Your task to perform on an android device: Add usb-b to the cart on newegg, then select checkout. Image 0: 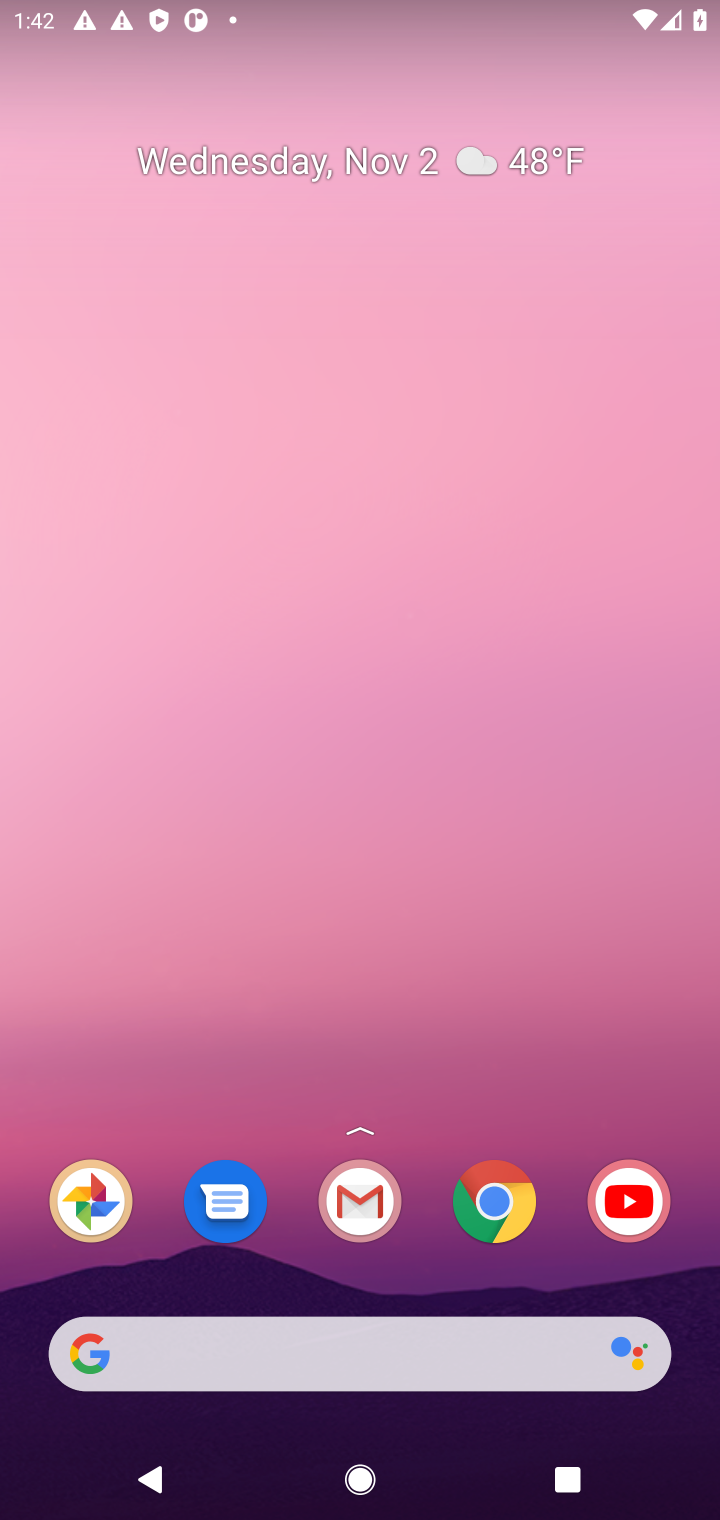
Step 0: click (487, 1228)
Your task to perform on an android device: Add usb-b to the cart on newegg, then select checkout. Image 1: 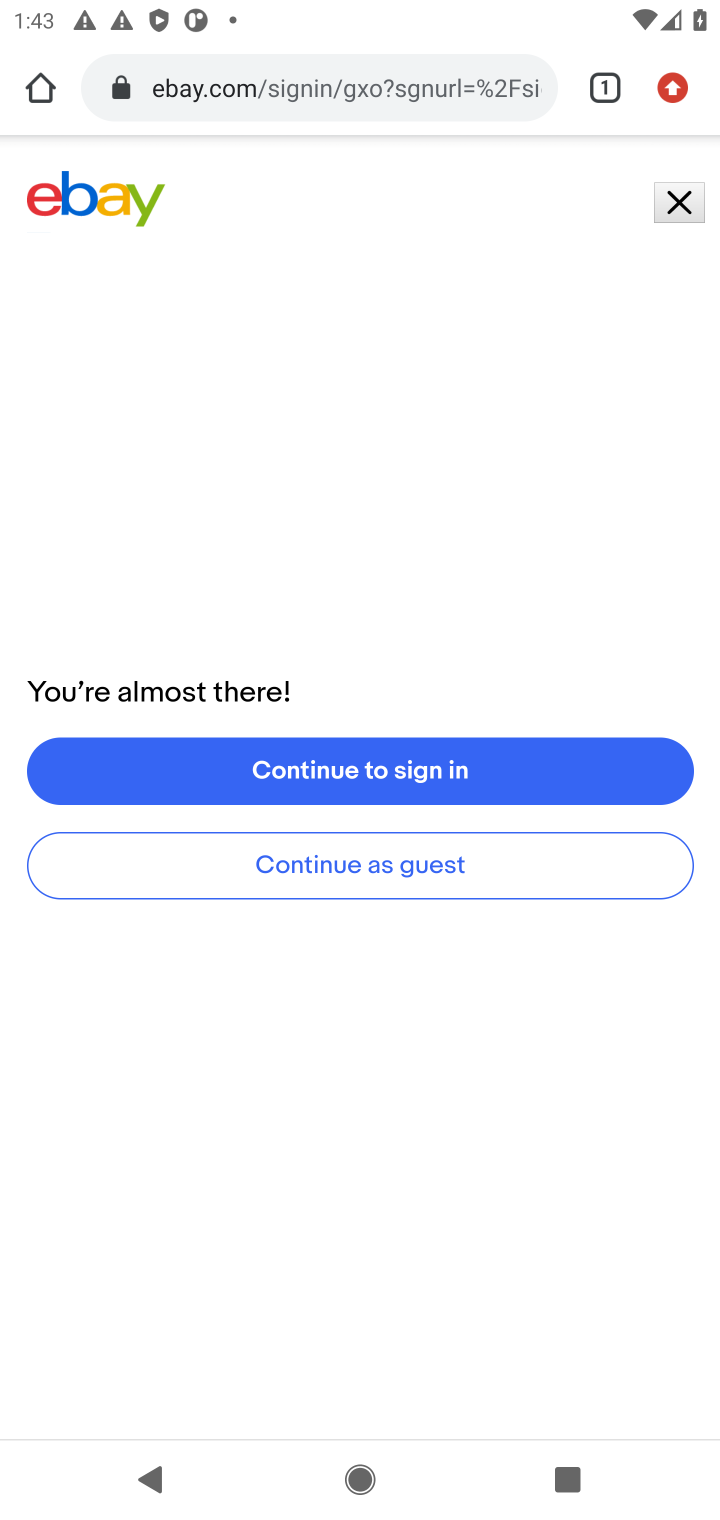
Step 1: click (351, 74)
Your task to perform on an android device: Add usb-b to the cart on newegg, then select checkout. Image 2: 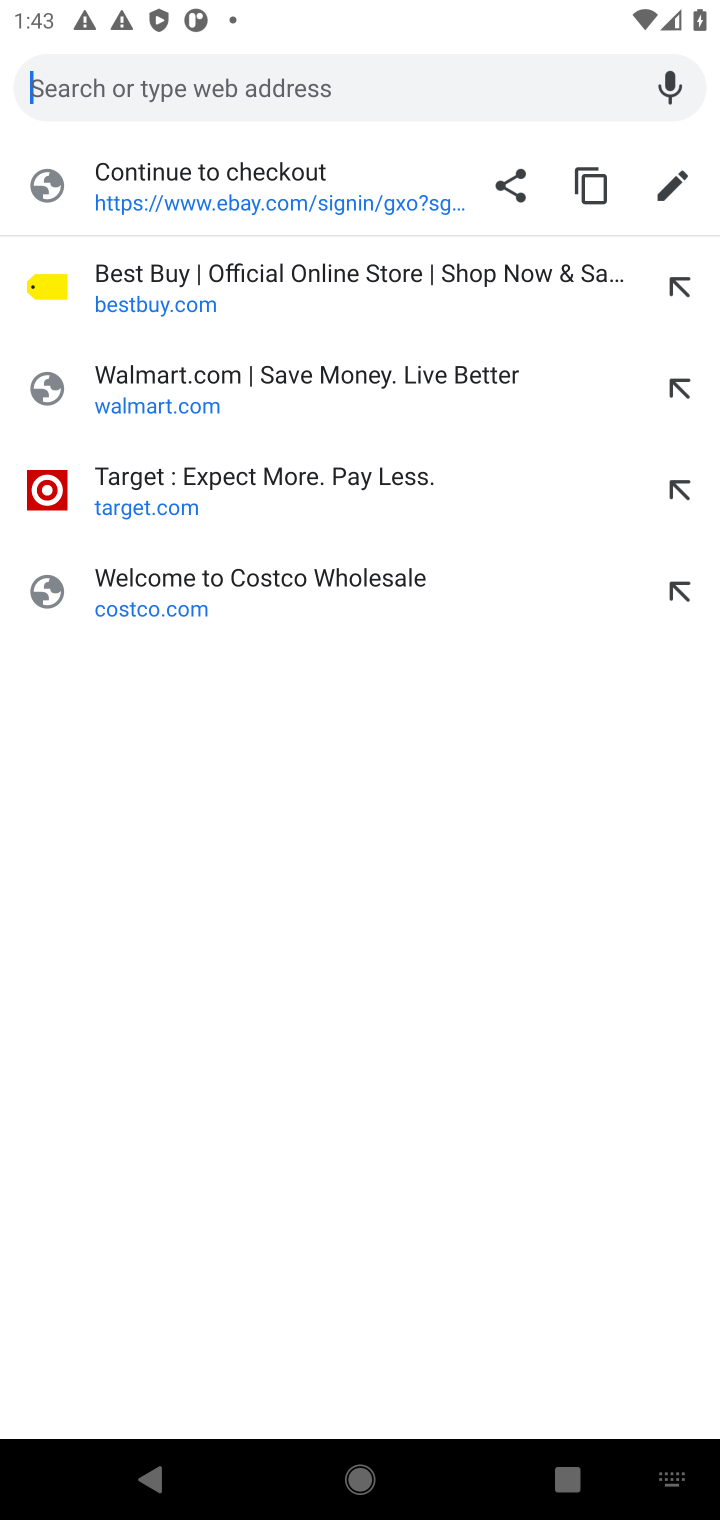
Step 2: type "newegg"
Your task to perform on an android device: Add usb-b to the cart on newegg, then select checkout. Image 3: 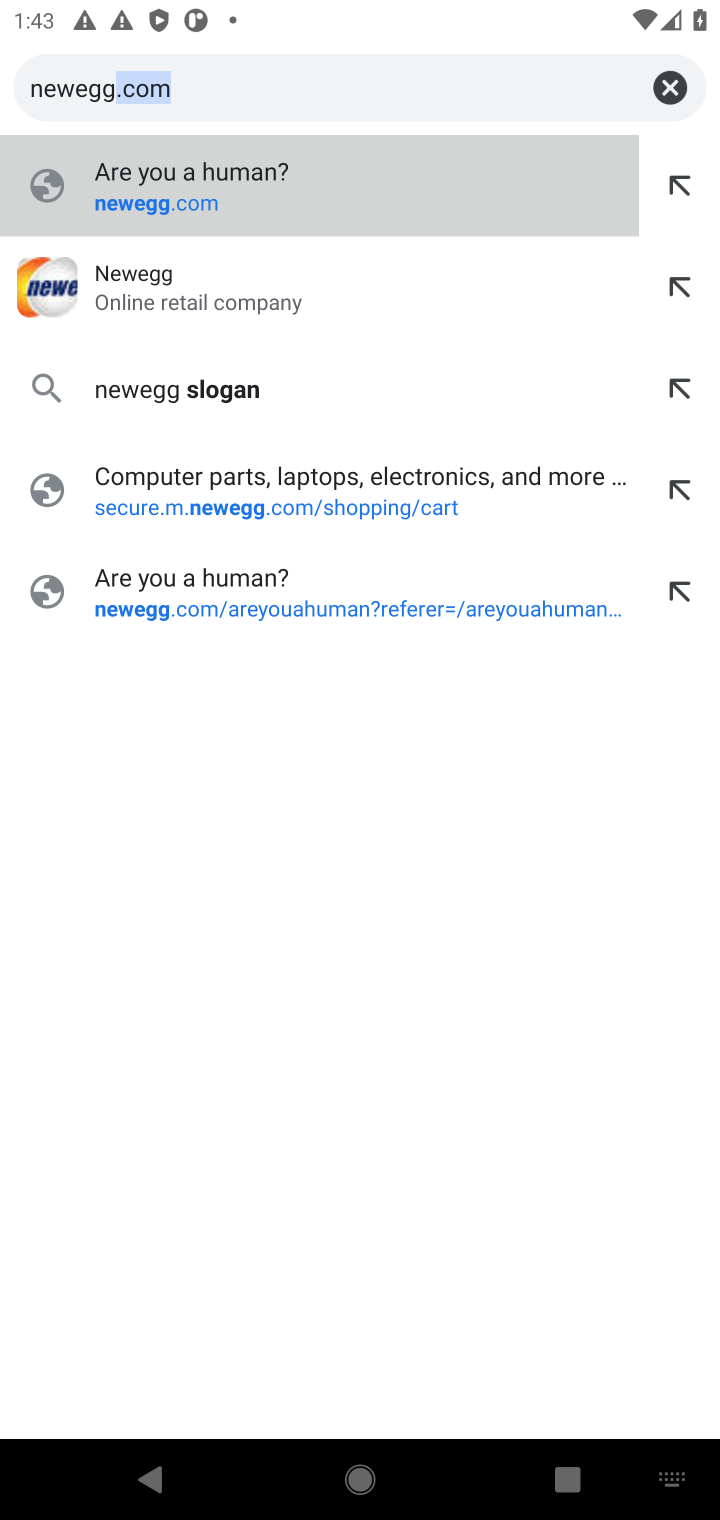
Step 3: click (229, 276)
Your task to perform on an android device: Add usb-b to the cart on newegg, then select checkout. Image 4: 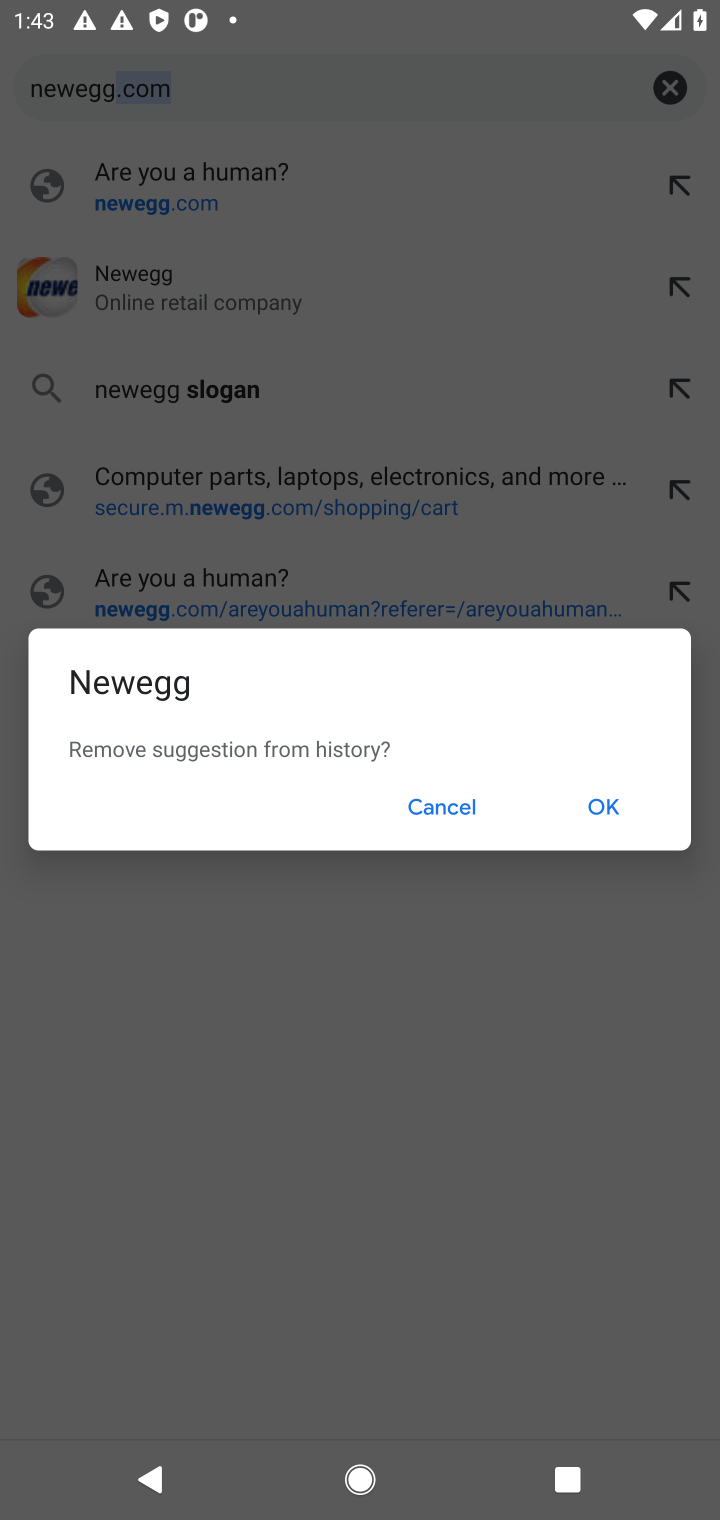
Step 4: click (602, 806)
Your task to perform on an android device: Add usb-b to the cart on newegg, then select checkout. Image 5: 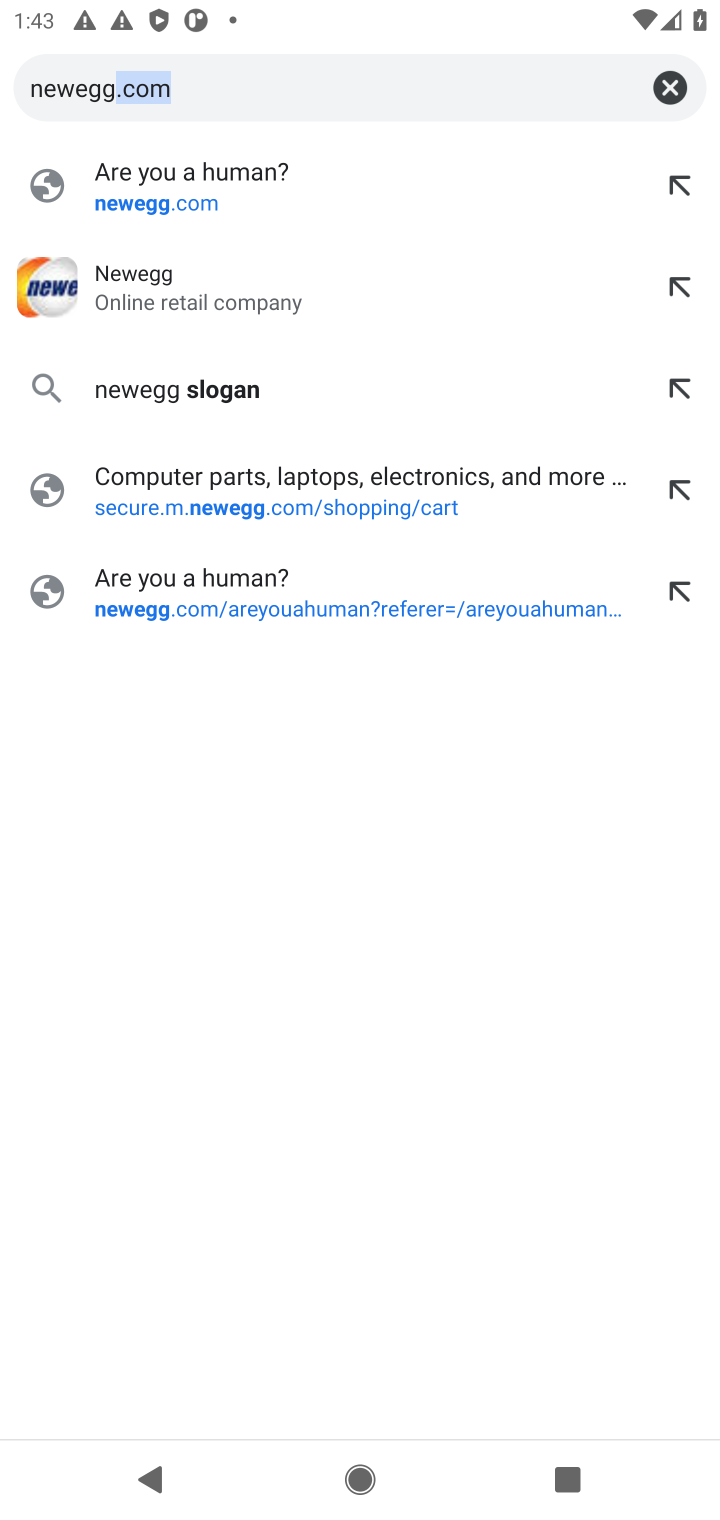
Step 5: click (307, 89)
Your task to perform on an android device: Add usb-b to the cart on newegg, then select checkout. Image 6: 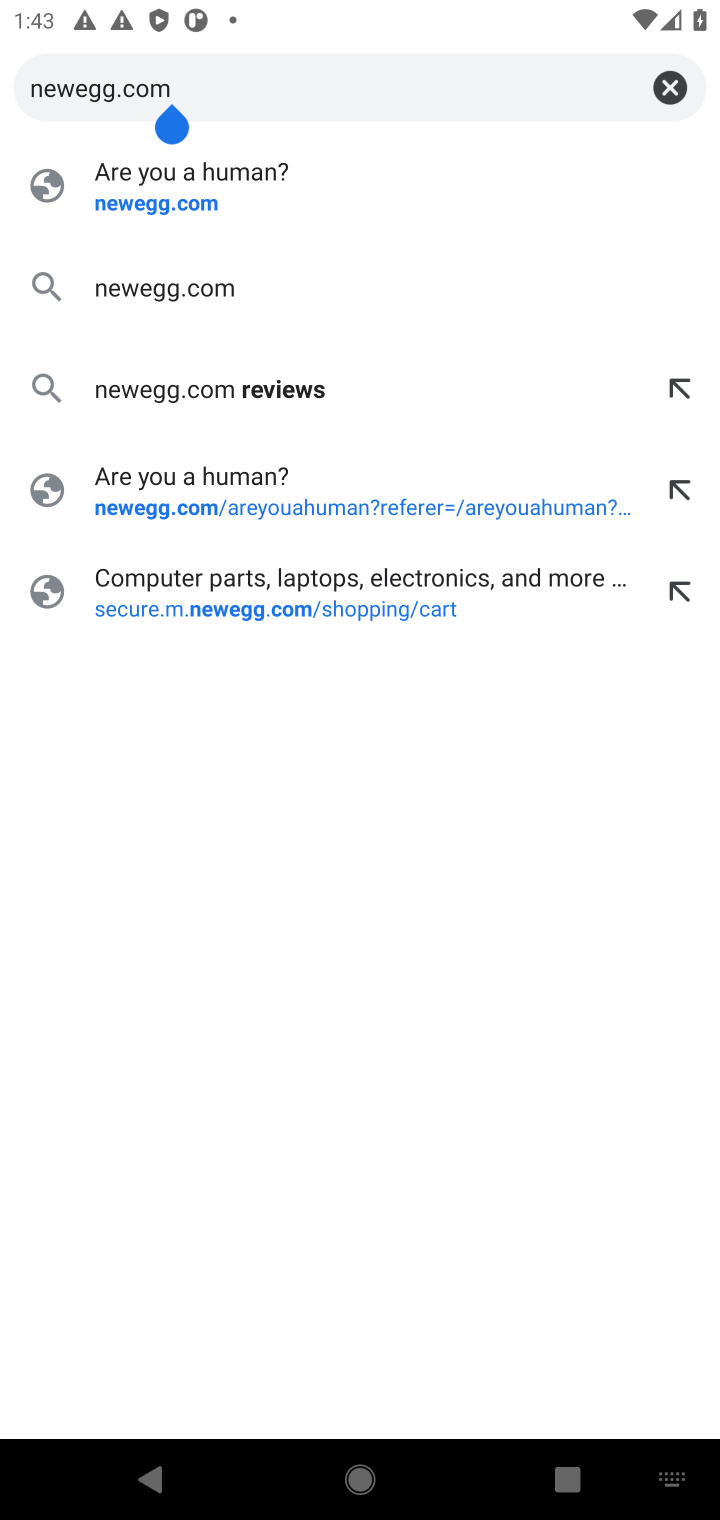
Step 6: click (202, 285)
Your task to perform on an android device: Add usb-b to the cart on newegg, then select checkout. Image 7: 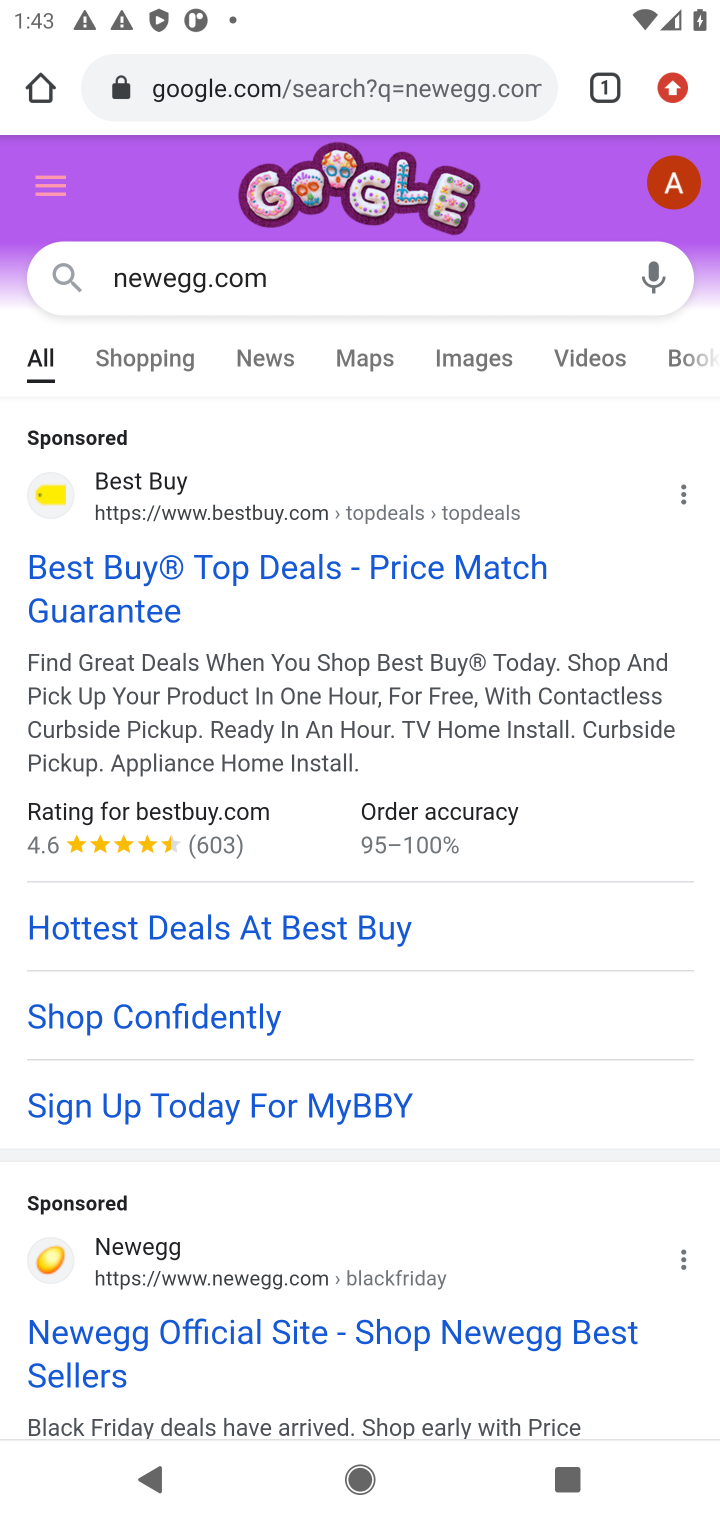
Step 7: click (257, 1269)
Your task to perform on an android device: Add usb-b to the cart on newegg, then select checkout. Image 8: 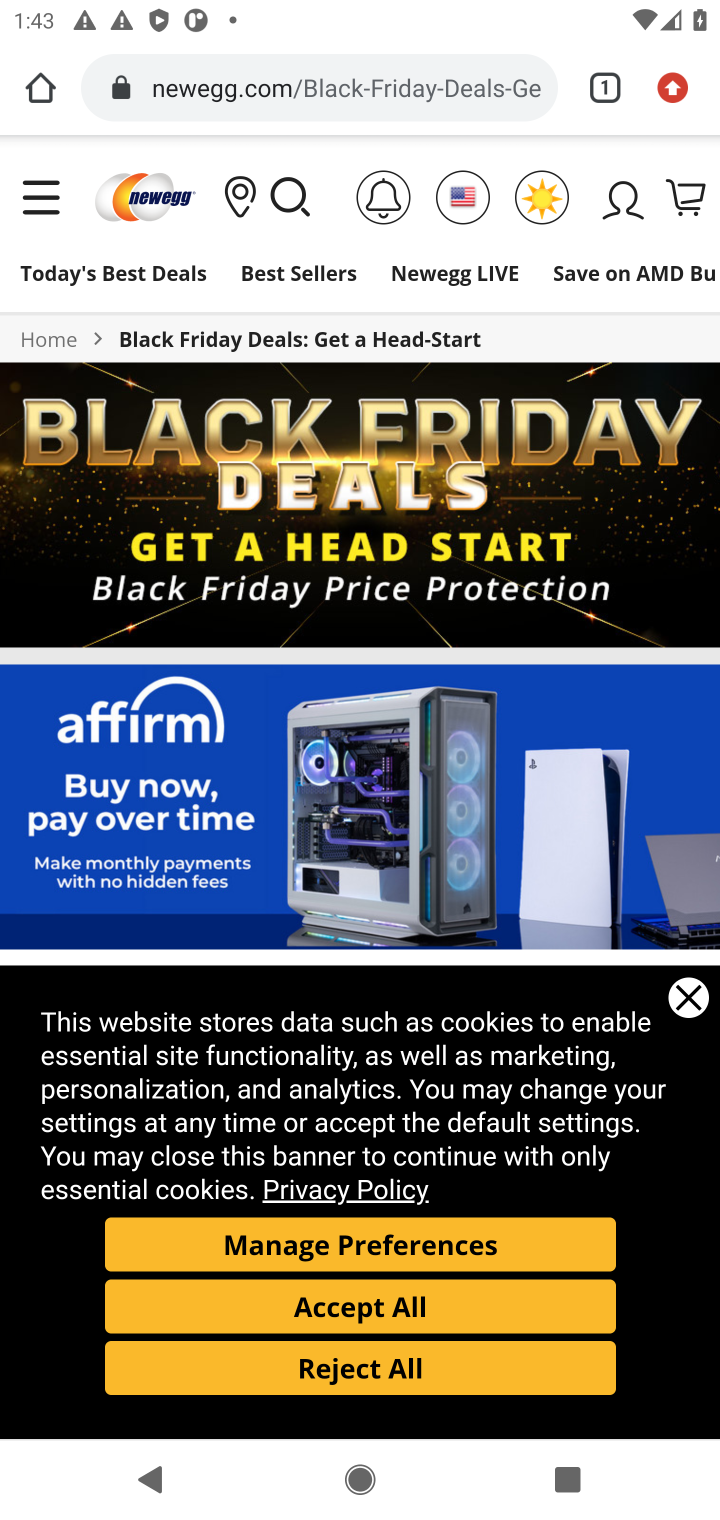
Step 8: click (289, 198)
Your task to perform on an android device: Add usb-b to the cart on newegg, then select checkout. Image 9: 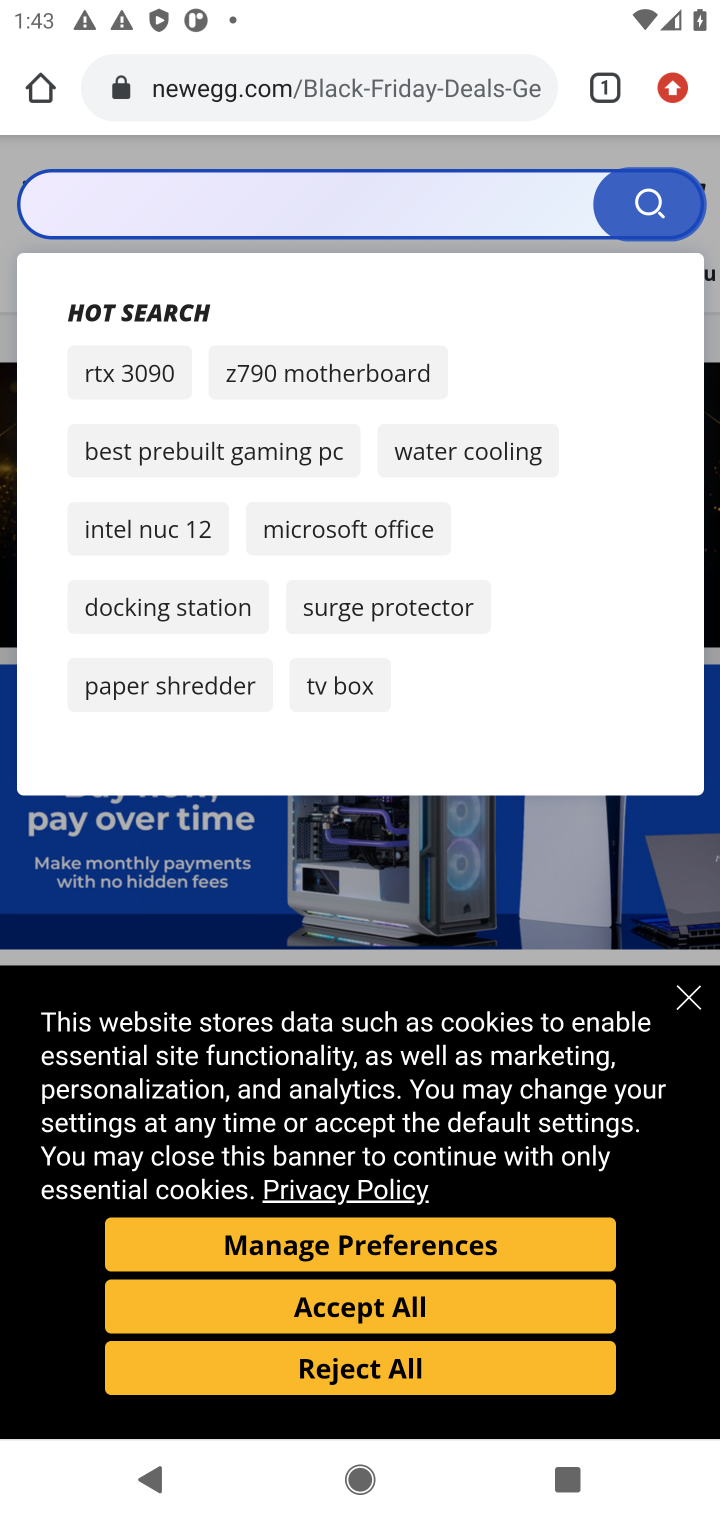
Step 9: click (482, 199)
Your task to perform on an android device: Add usb-b to the cart on newegg, then select checkout. Image 10: 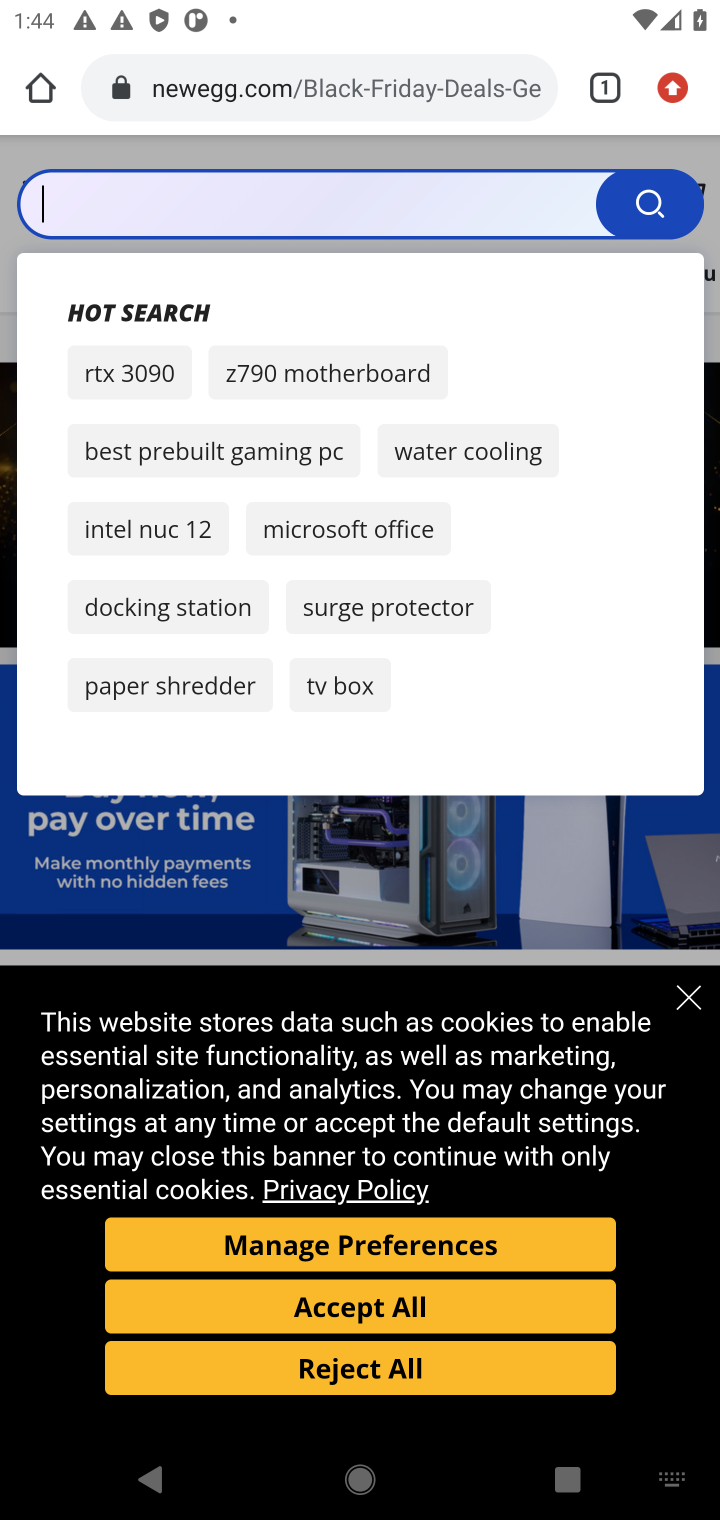
Step 10: type " usb-b"
Your task to perform on an android device: Add usb-b to the cart on newegg, then select checkout. Image 11: 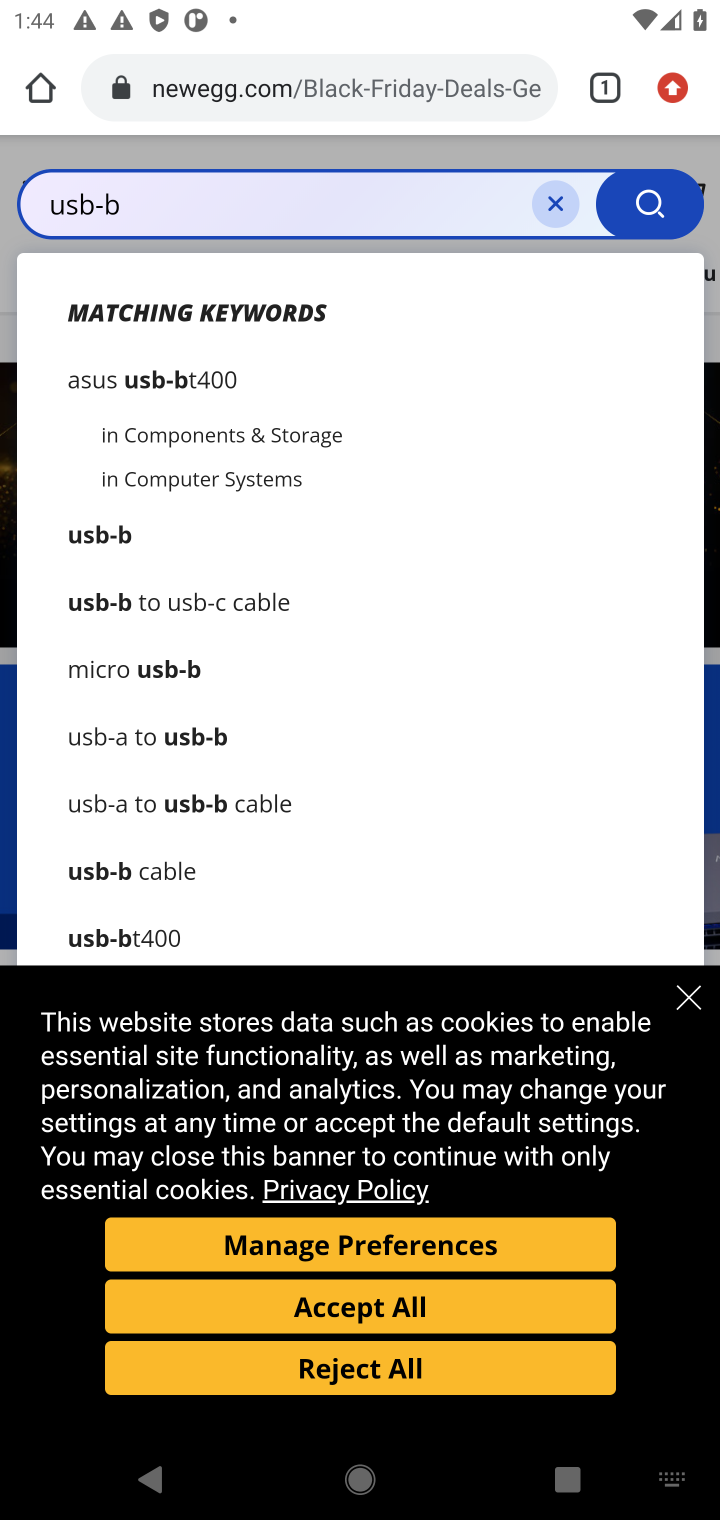
Step 11: click (95, 533)
Your task to perform on an android device: Add usb-b to the cart on newegg, then select checkout. Image 12: 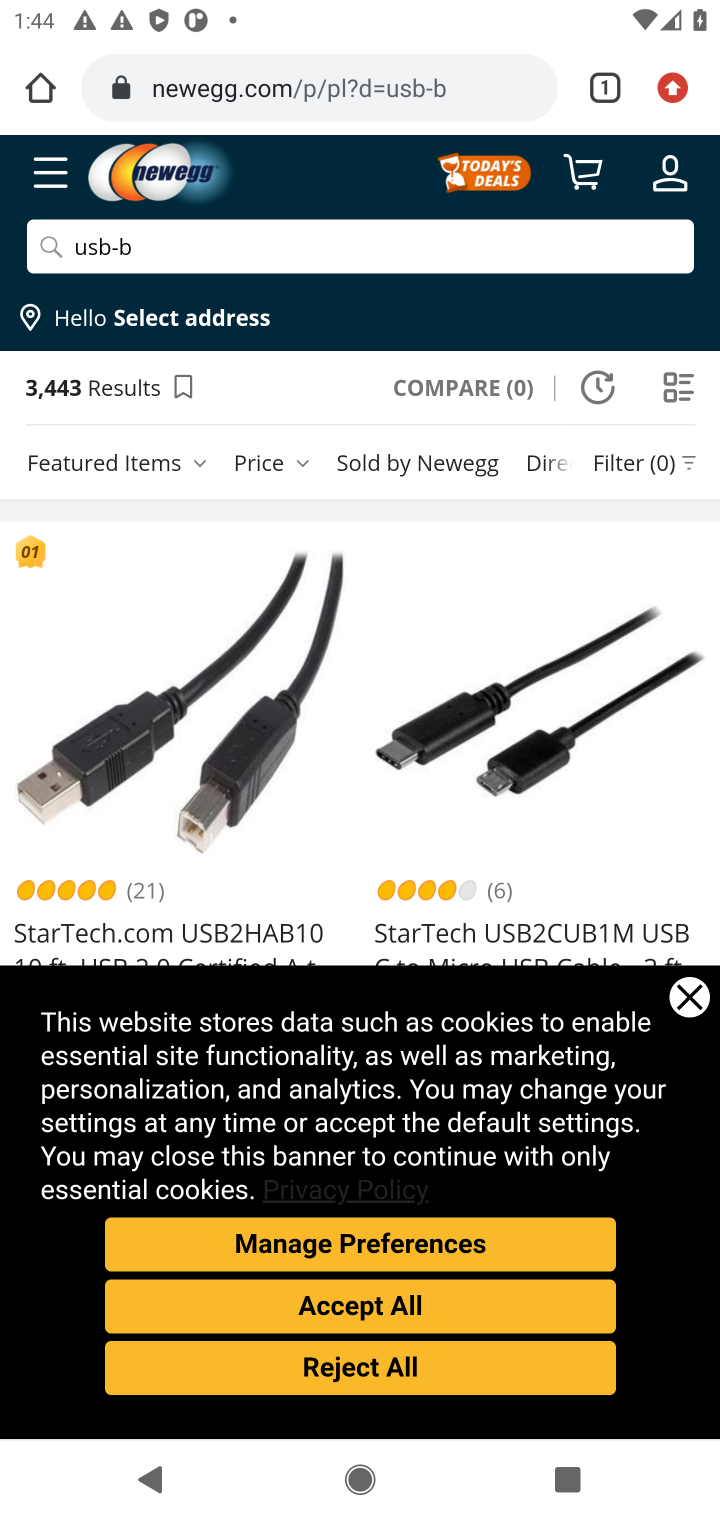
Step 12: drag from (271, 837) to (394, 415)
Your task to perform on an android device: Add usb-b to the cart on newegg, then select checkout. Image 13: 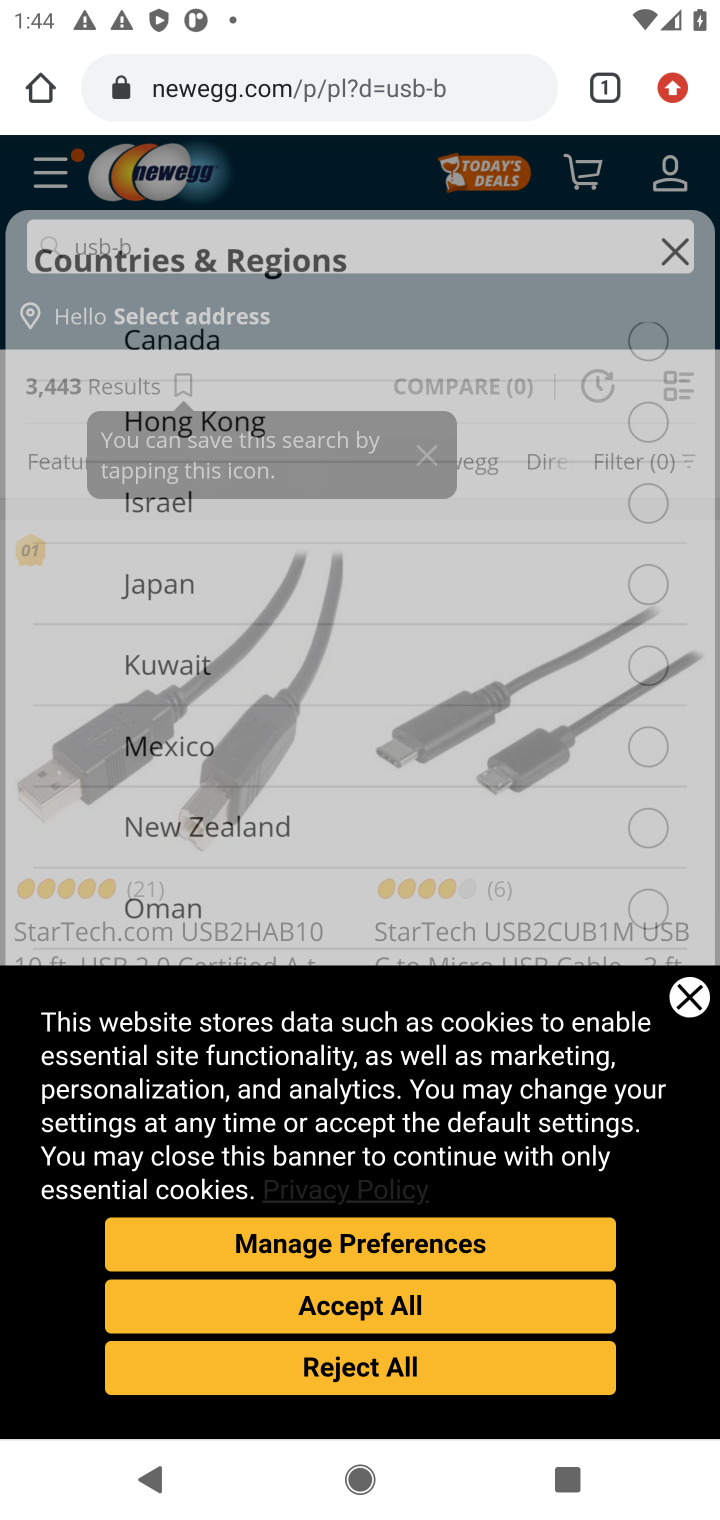
Step 13: click (693, 985)
Your task to perform on an android device: Add usb-b to the cart on newegg, then select checkout. Image 14: 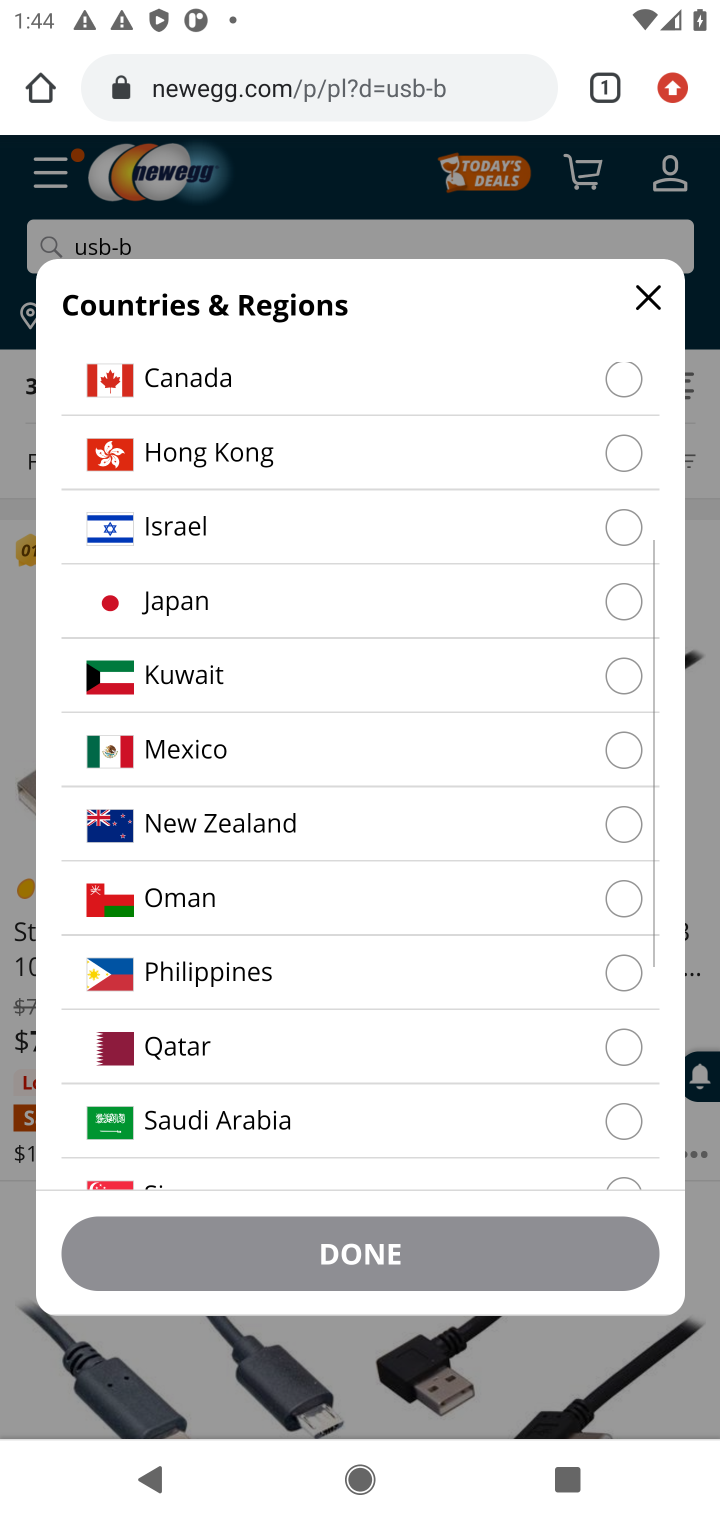
Step 14: drag from (515, 522) to (592, 1143)
Your task to perform on an android device: Add usb-b to the cart on newegg, then select checkout. Image 15: 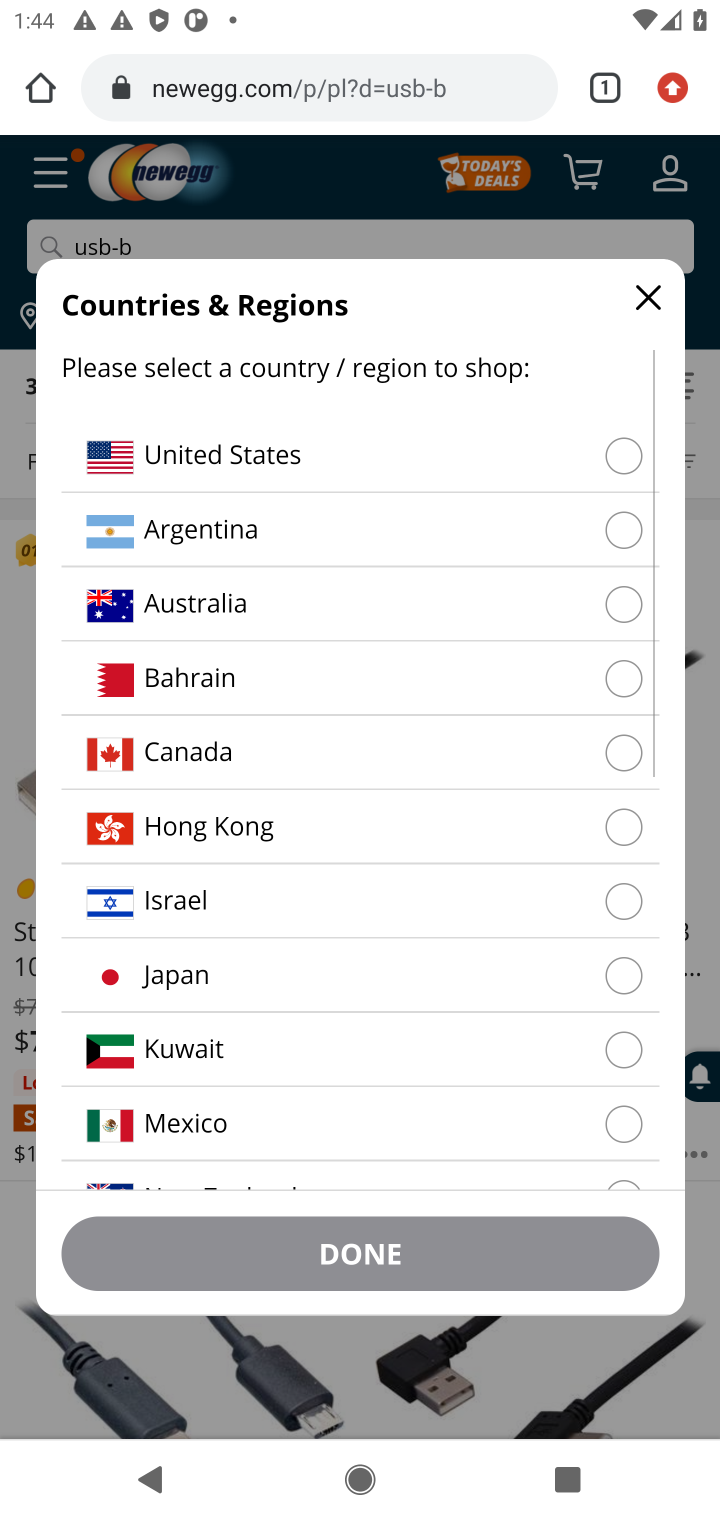
Step 15: click (623, 452)
Your task to perform on an android device: Add usb-b to the cart on newegg, then select checkout. Image 16: 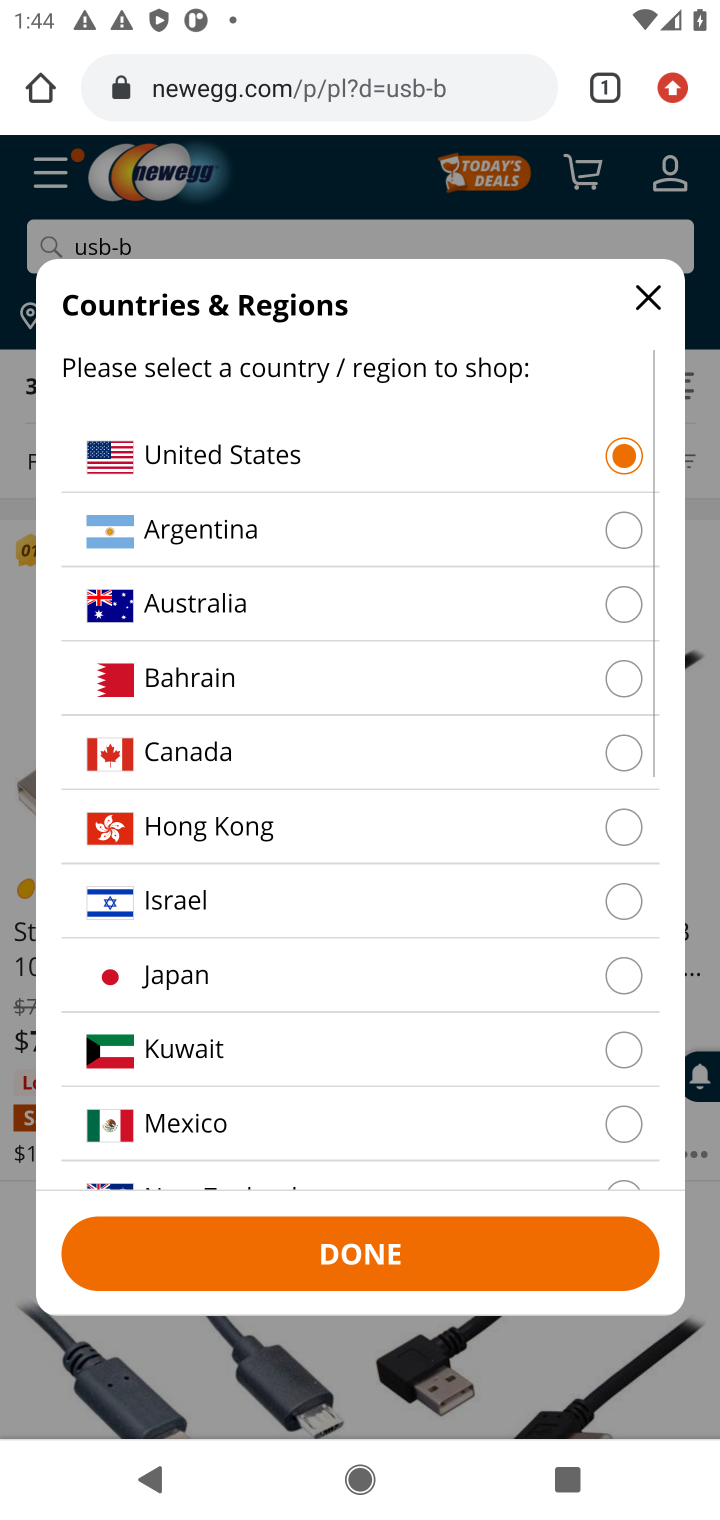
Step 16: click (516, 1260)
Your task to perform on an android device: Add usb-b to the cart on newegg, then select checkout. Image 17: 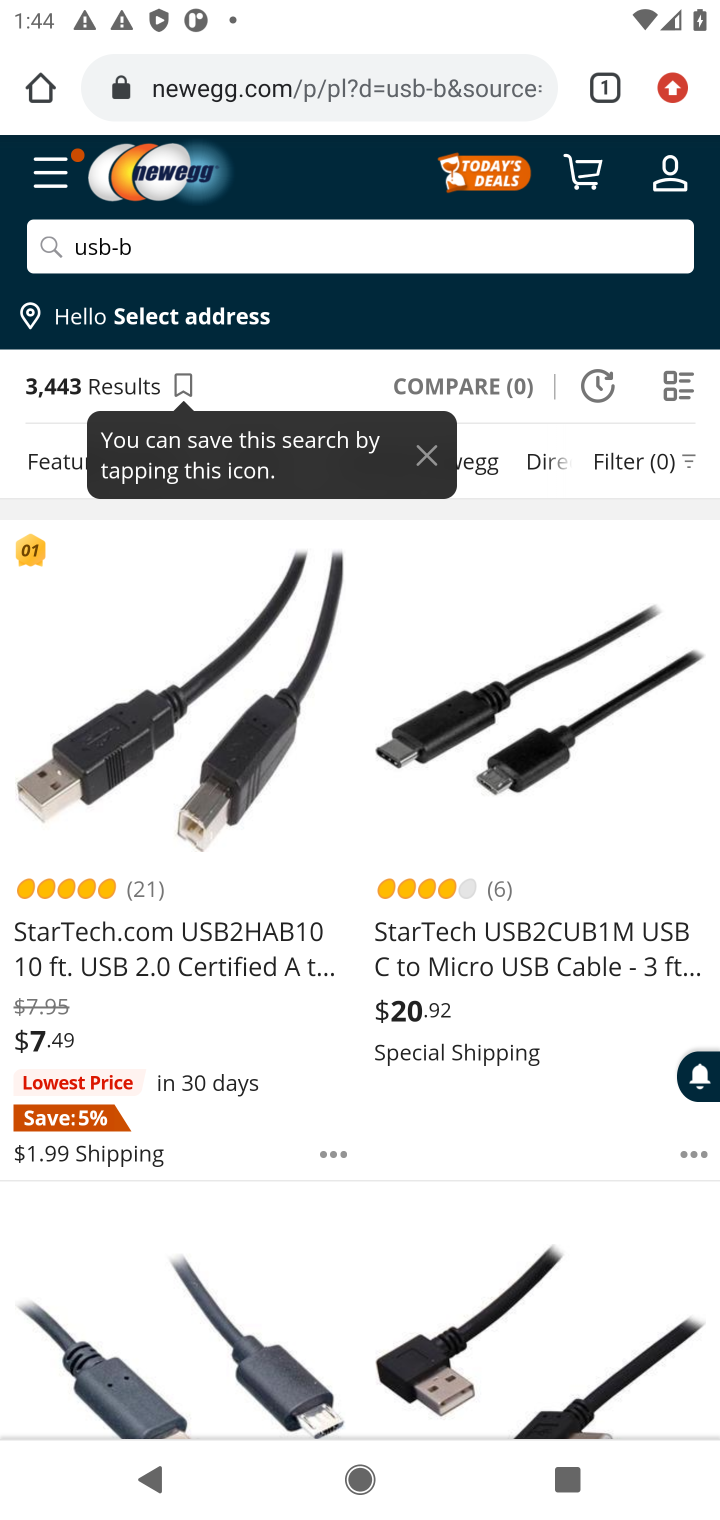
Step 17: drag from (471, 1083) to (476, 646)
Your task to perform on an android device: Add usb-b to the cart on newegg, then select checkout. Image 18: 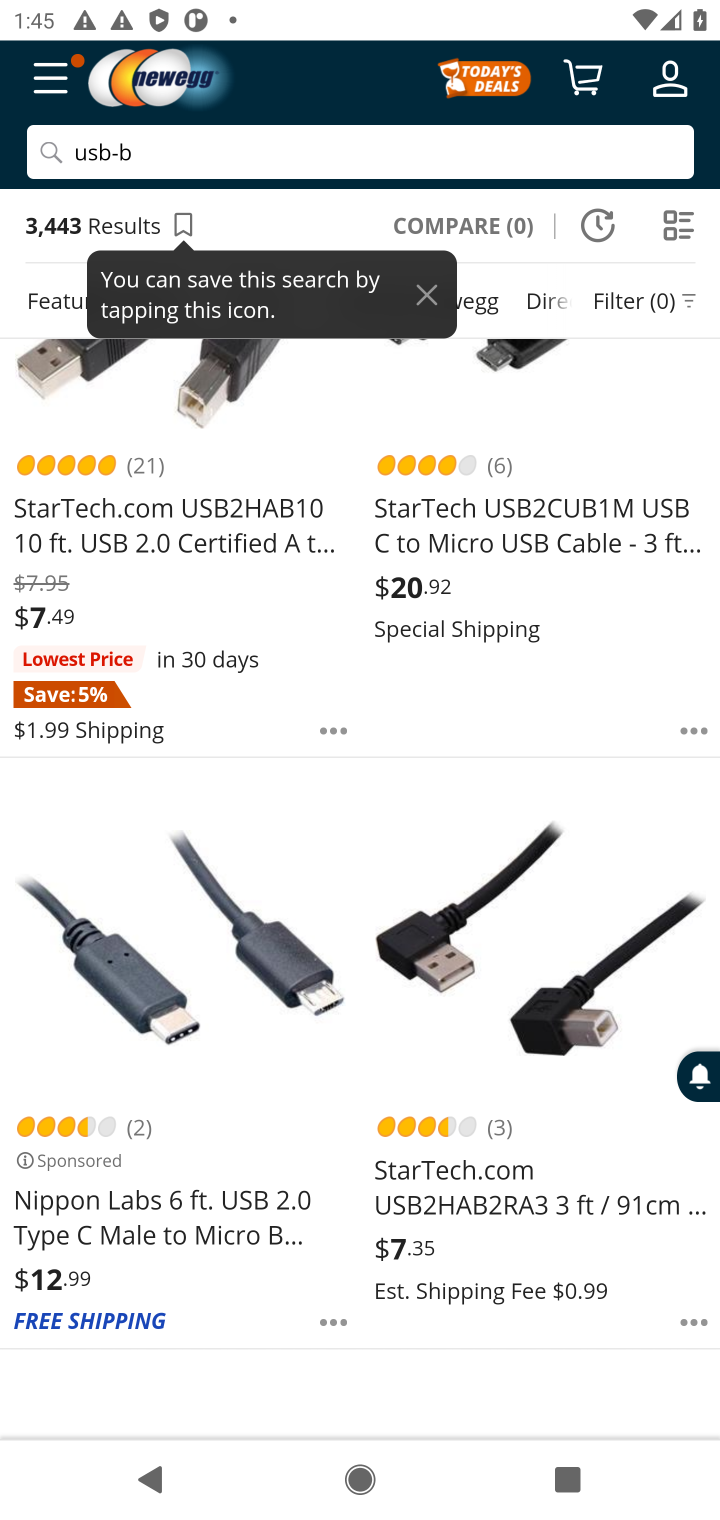
Step 18: drag from (239, 1135) to (287, 795)
Your task to perform on an android device: Add usb-b to the cart on newegg, then select checkout. Image 19: 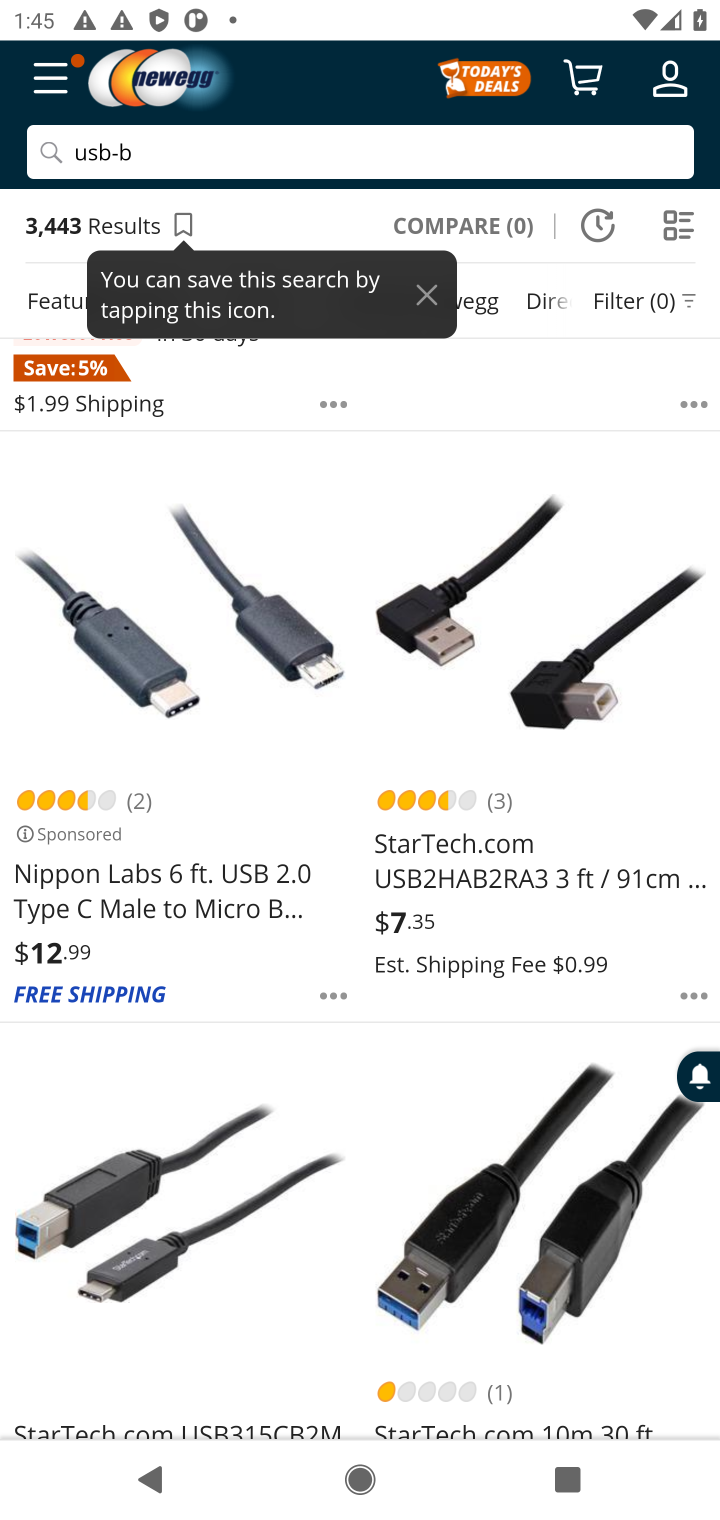
Step 19: click (389, 1002)
Your task to perform on an android device: Add usb-b to the cart on newegg, then select checkout. Image 20: 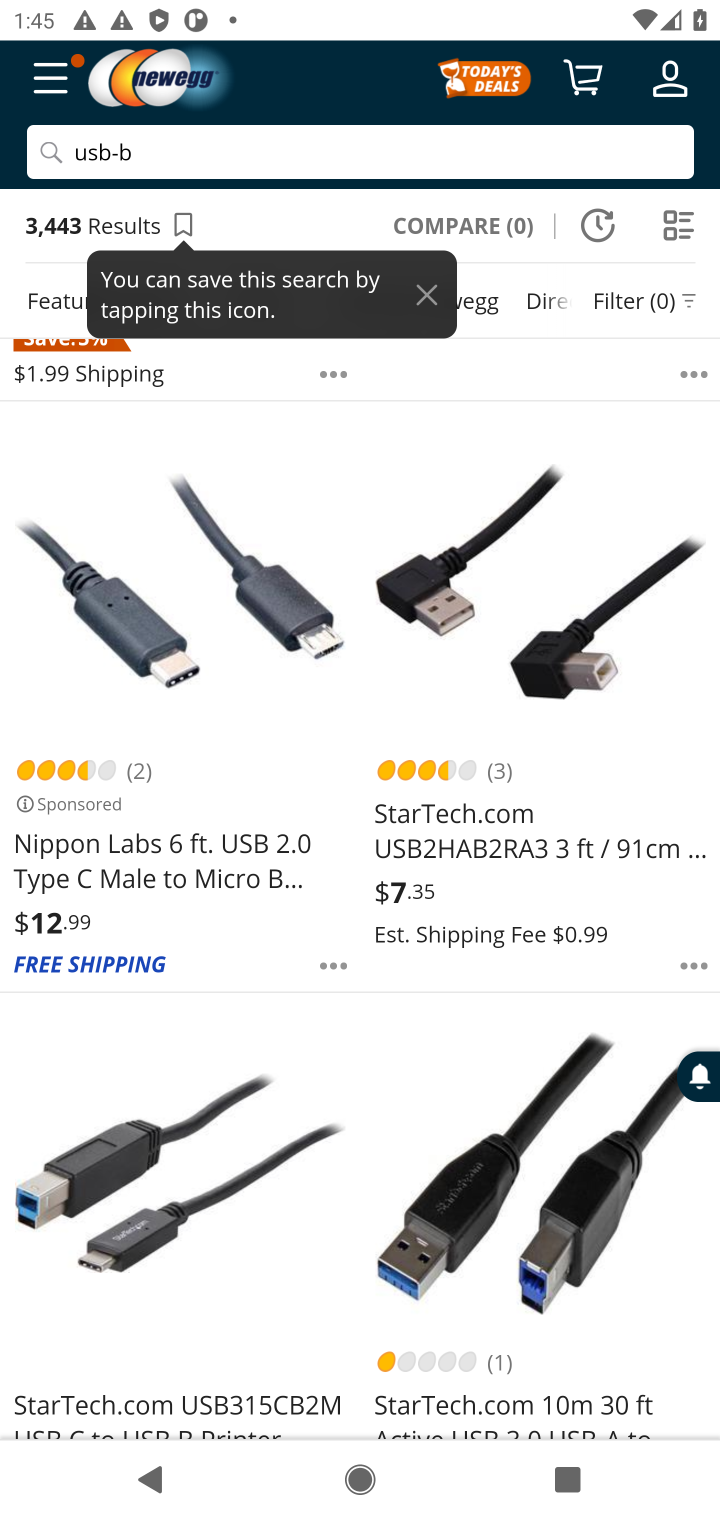
Step 20: drag from (307, 749) to (442, 1268)
Your task to perform on an android device: Add usb-b to the cart on newegg, then select checkout. Image 21: 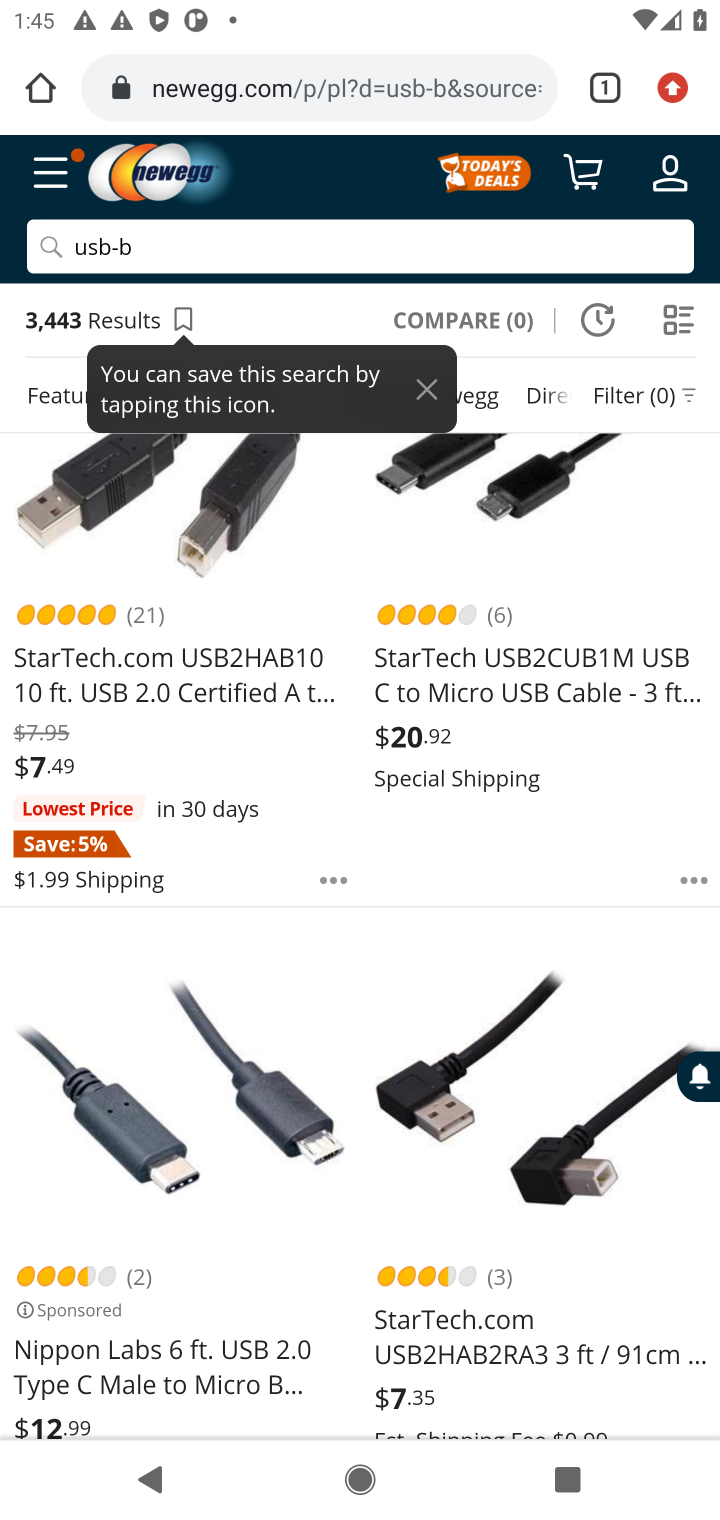
Step 21: drag from (327, 603) to (497, 1258)
Your task to perform on an android device: Add usb-b to the cart on newegg, then select checkout. Image 22: 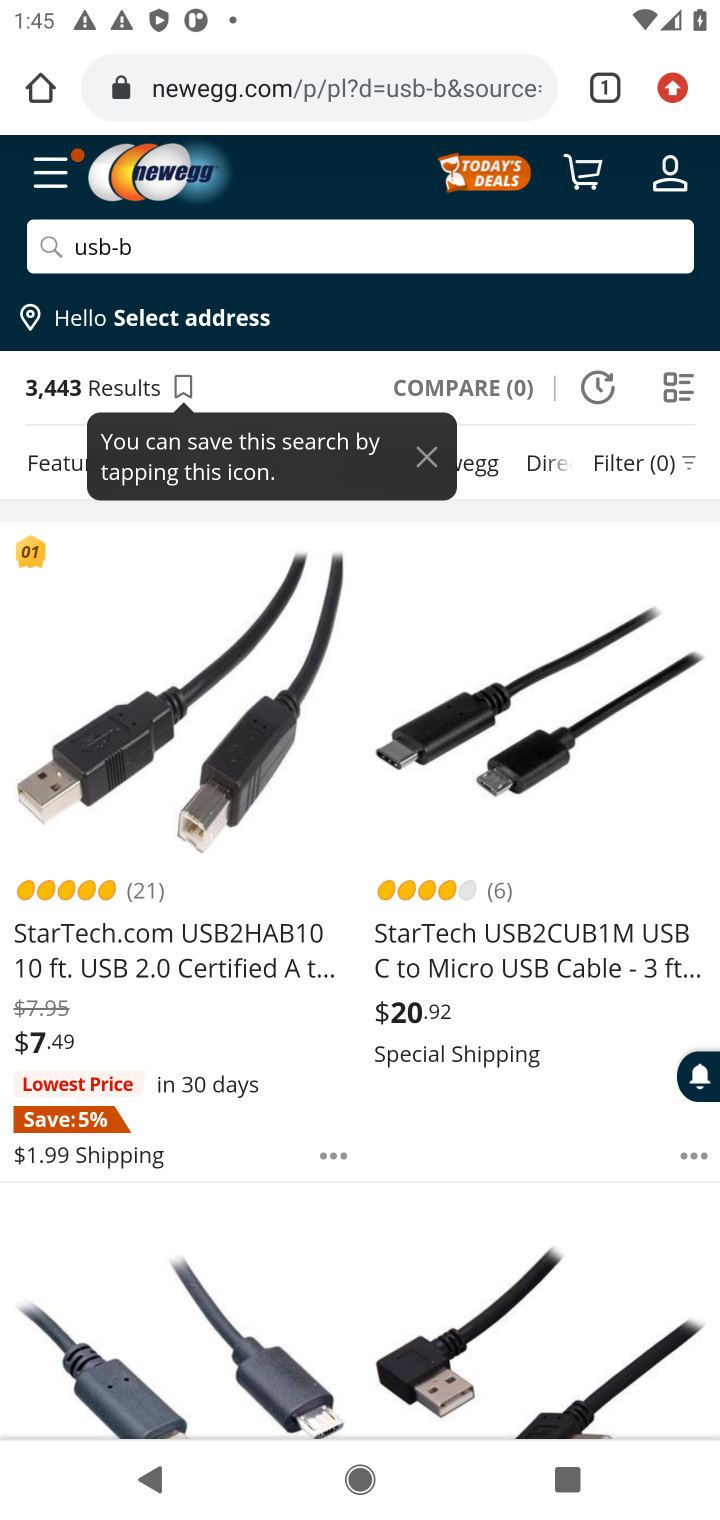
Step 22: drag from (328, 909) to (379, 1218)
Your task to perform on an android device: Add usb-b to the cart on newegg, then select checkout. Image 23: 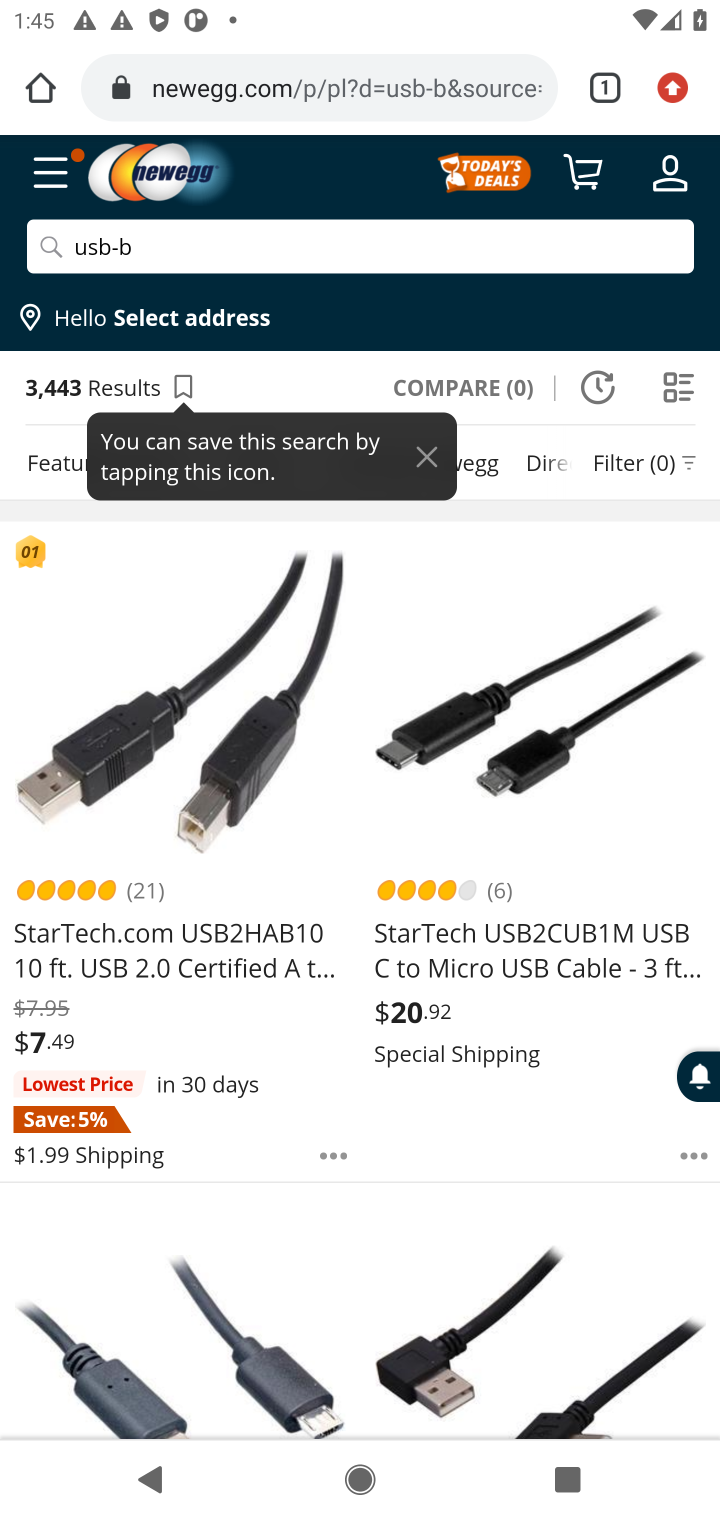
Step 23: drag from (288, 671) to (394, 1204)
Your task to perform on an android device: Add usb-b to the cart on newegg, then select checkout. Image 24: 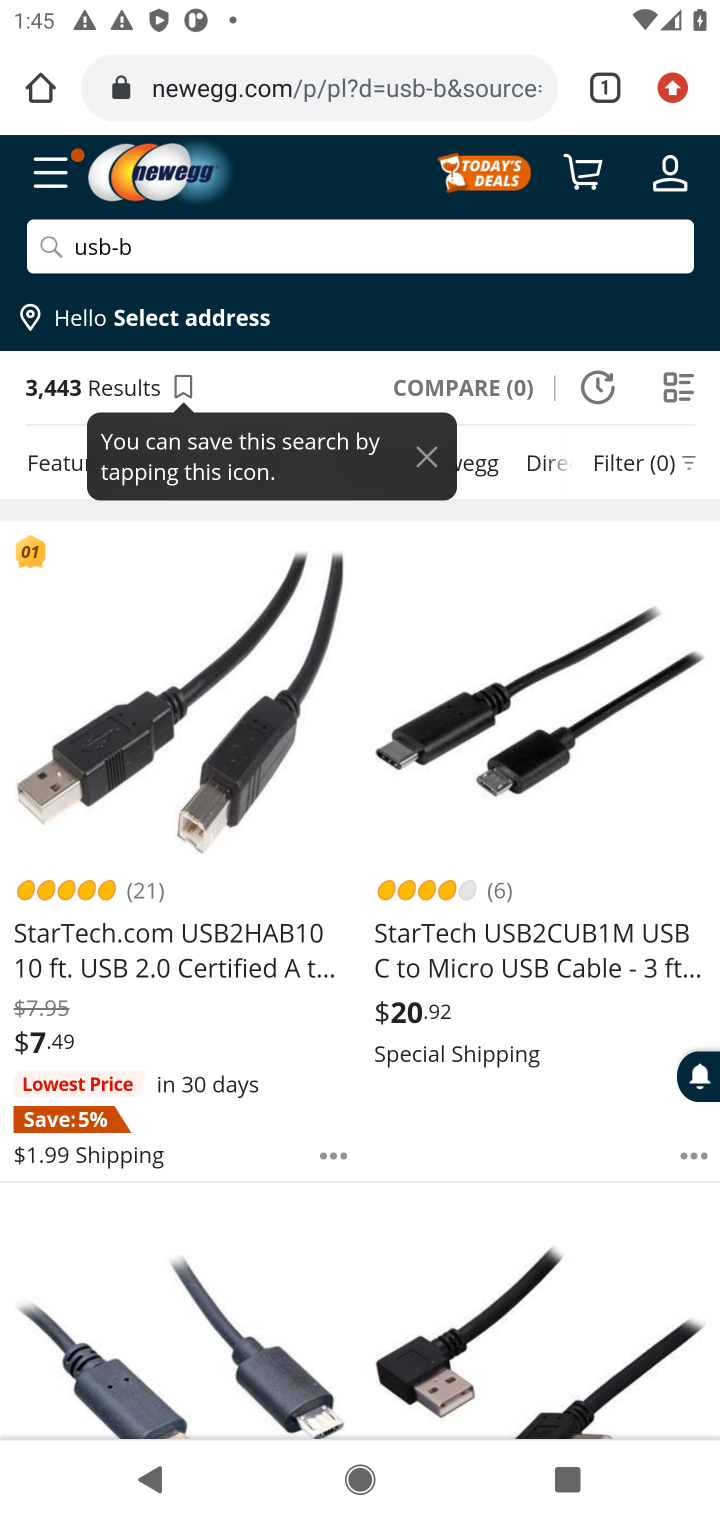
Step 24: drag from (325, 751) to (384, 1293)
Your task to perform on an android device: Add usb-b to the cart on newegg, then select checkout. Image 25: 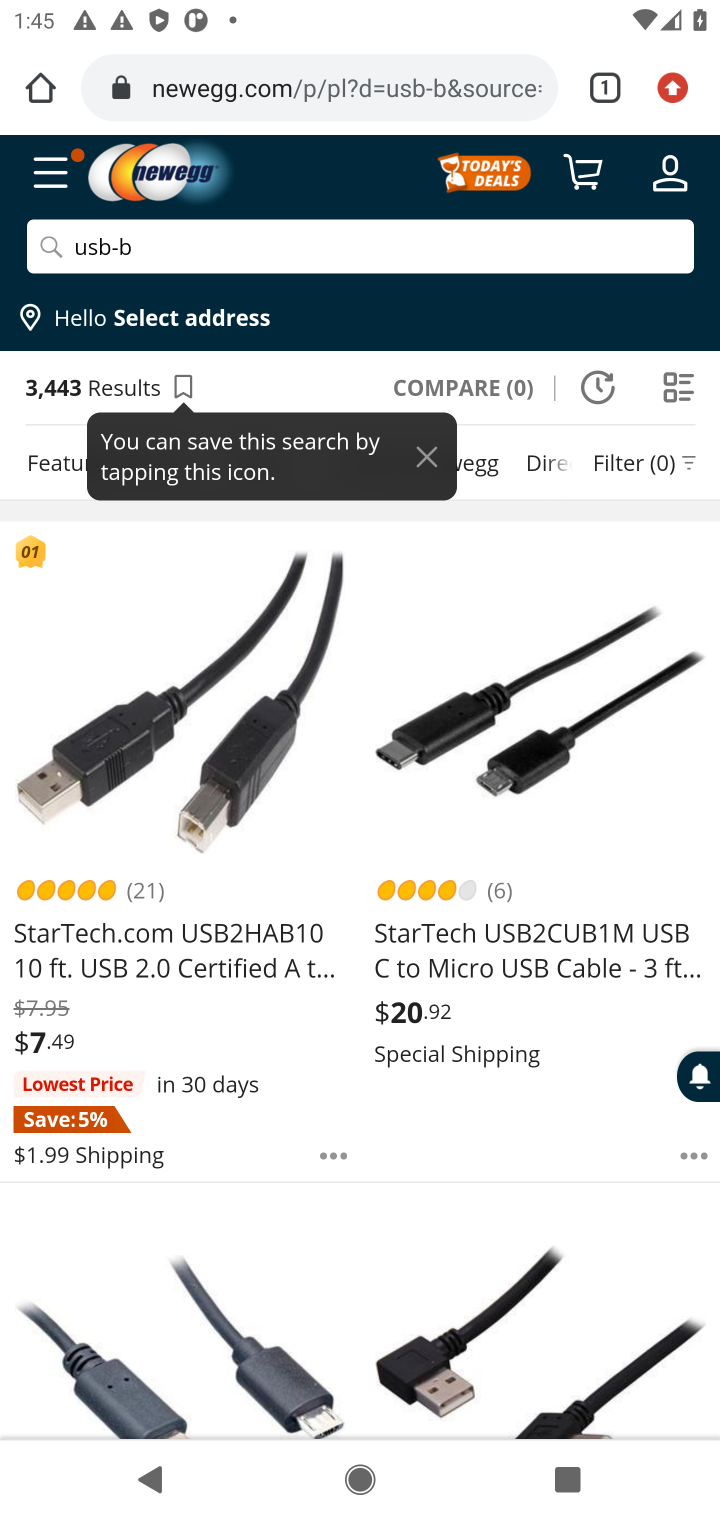
Step 25: click (233, 653)
Your task to perform on an android device: Add usb-b to the cart on newegg, then select checkout. Image 26: 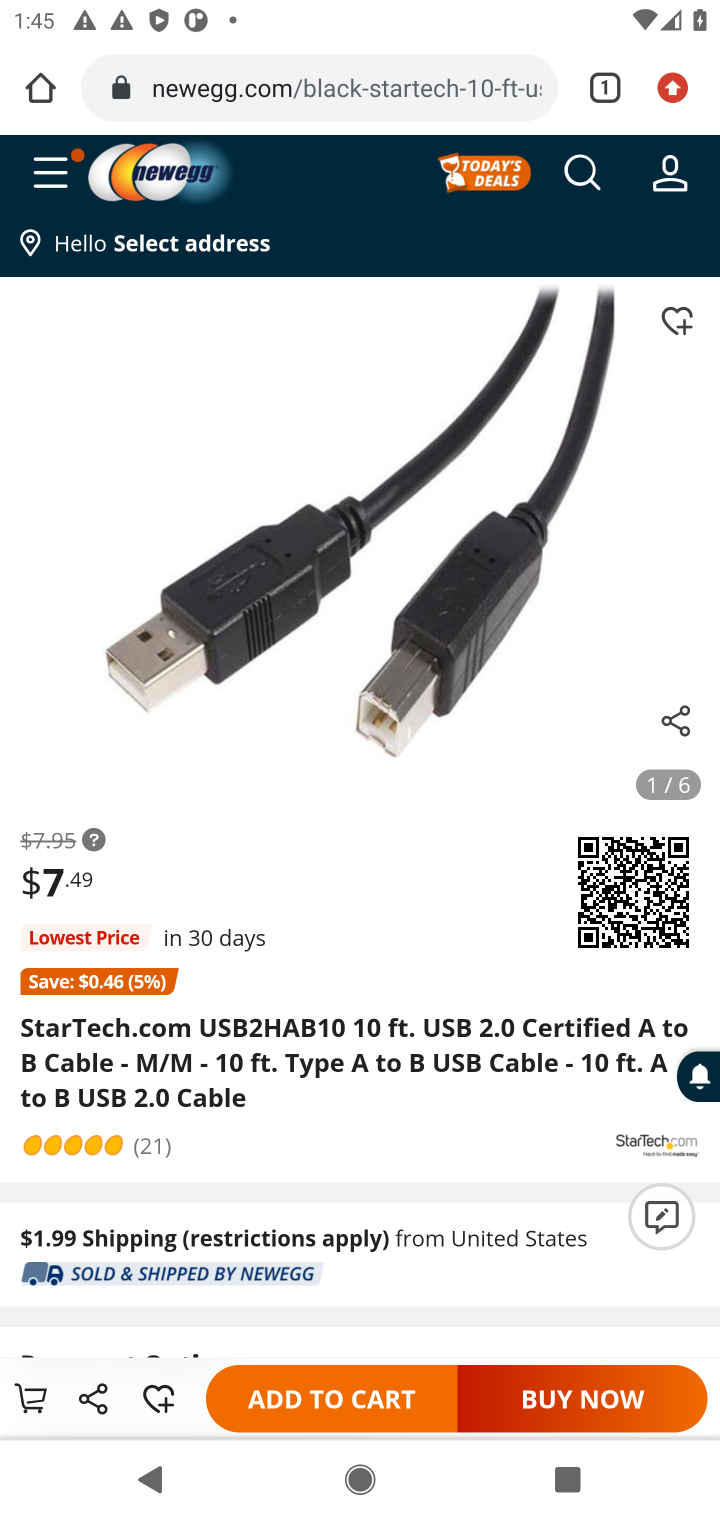
Step 26: click (357, 1404)
Your task to perform on an android device: Add usb-b to the cart on newegg, then select checkout. Image 27: 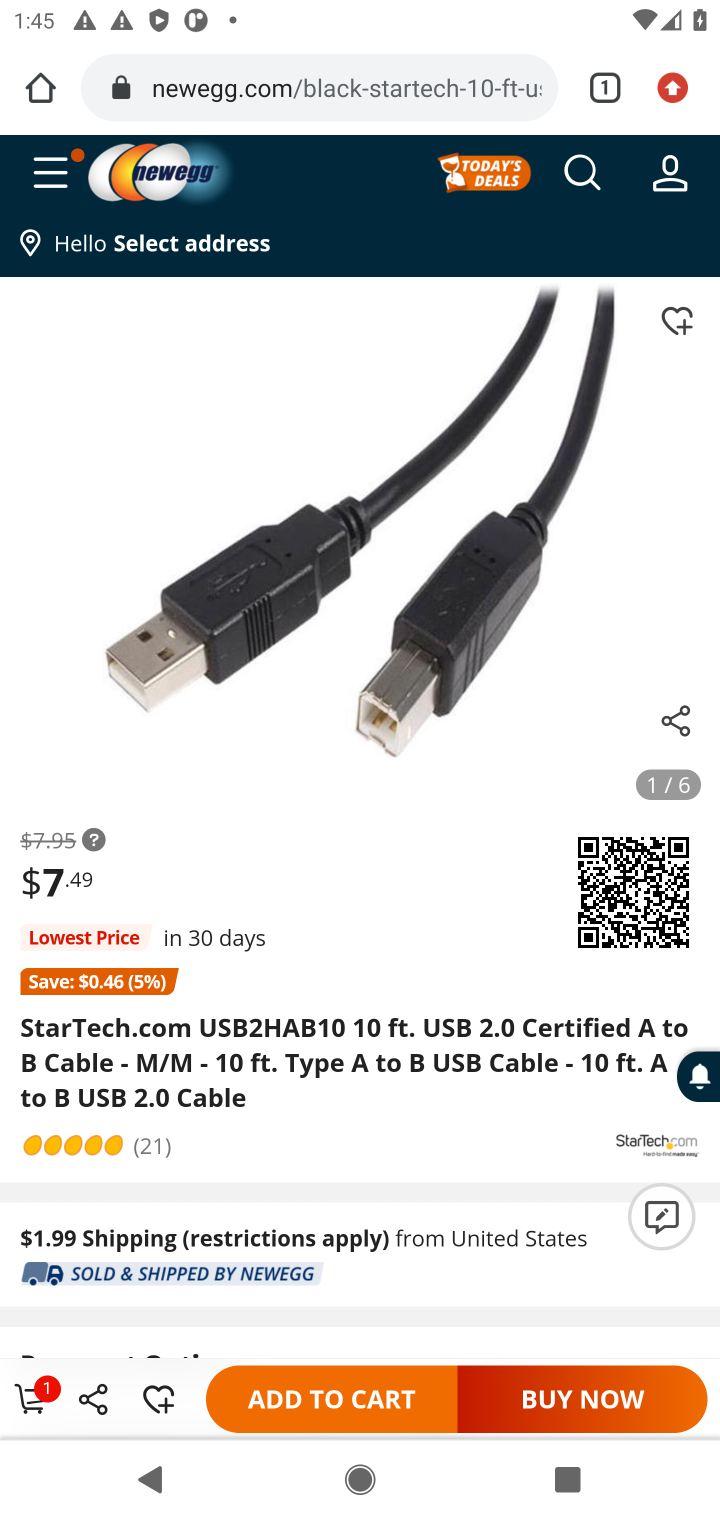
Step 27: drag from (498, 859) to (583, 361)
Your task to perform on an android device: Add usb-b to the cart on newegg, then select checkout. Image 28: 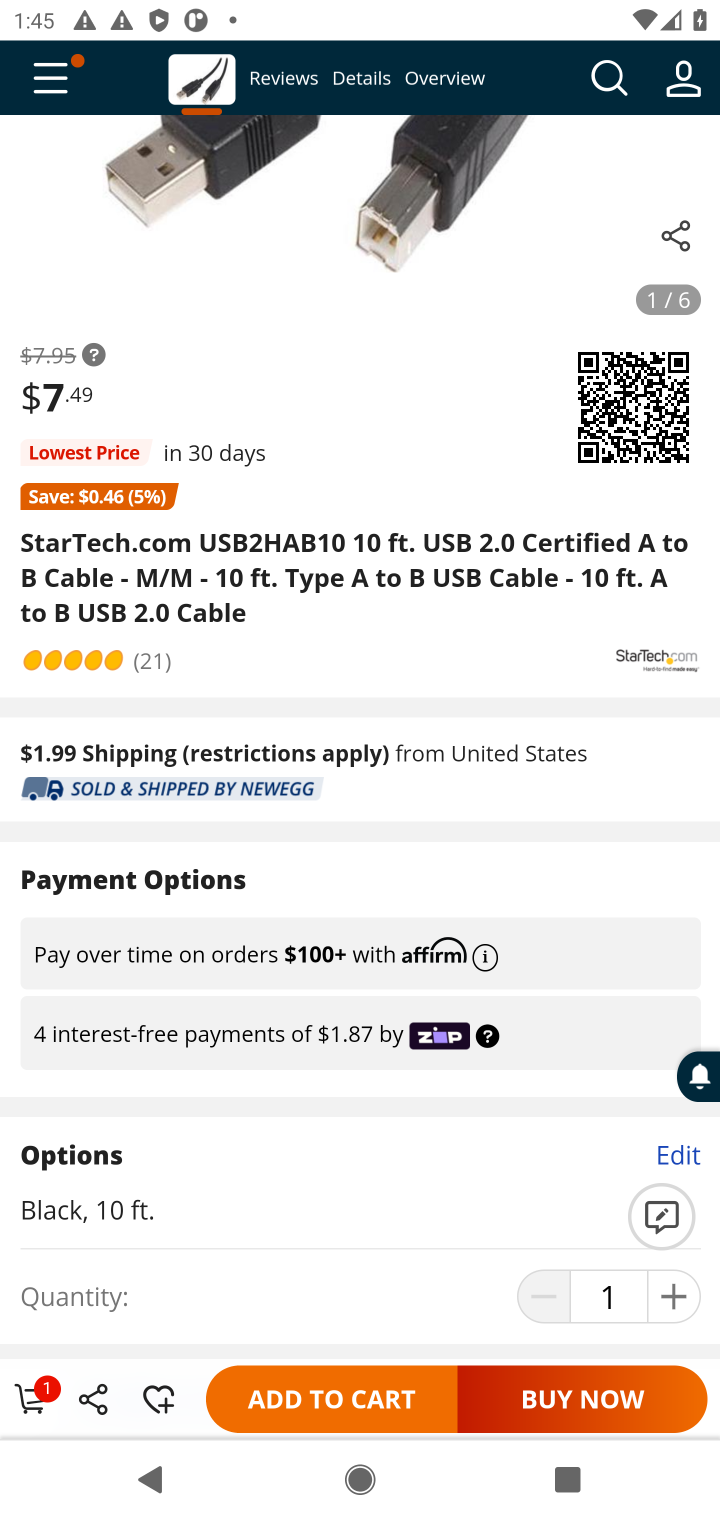
Step 28: click (673, 87)
Your task to perform on an android device: Add usb-b to the cart on newegg, then select checkout. Image 29: 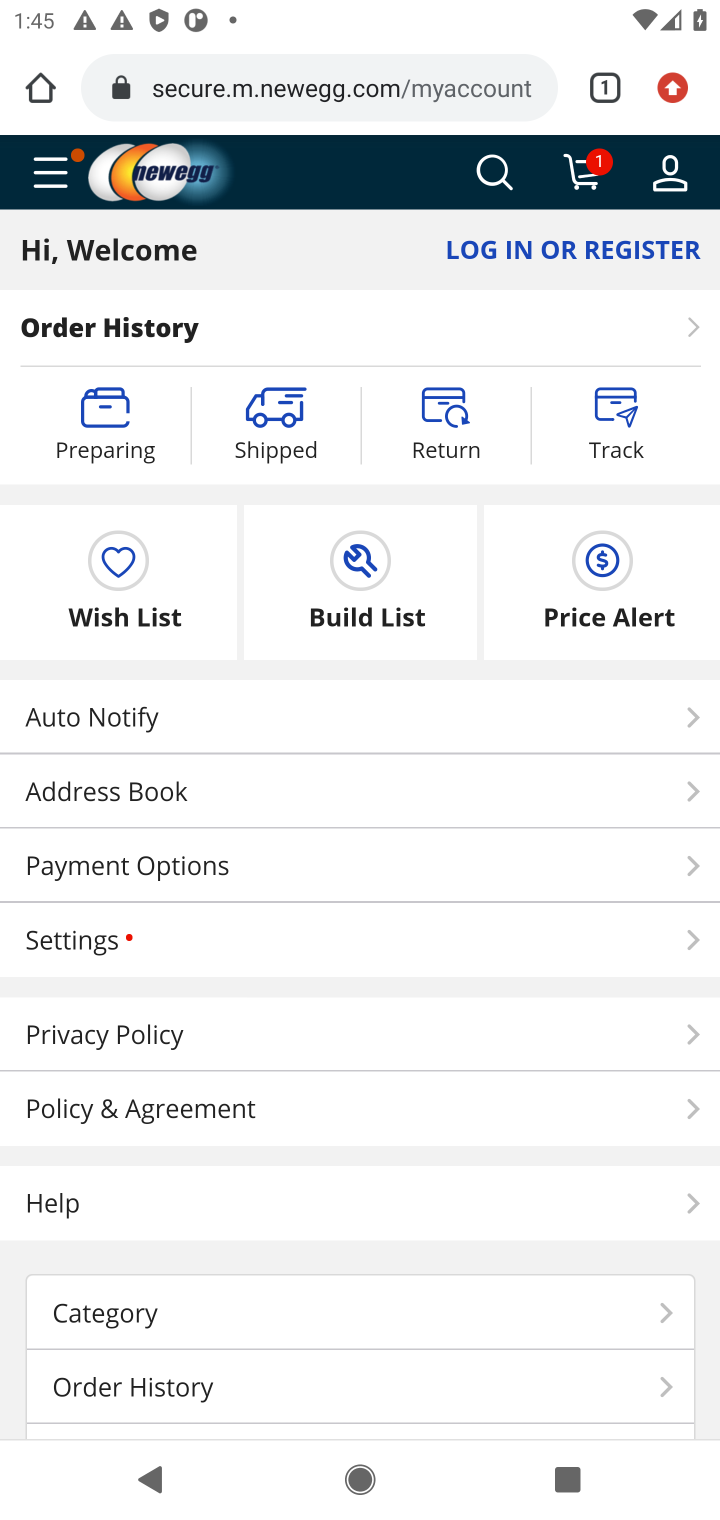
Step 29: click (588, 188)
Your task to perform on an android device: Add usb-b to the cart on newegg, then select checkout. Image 30: 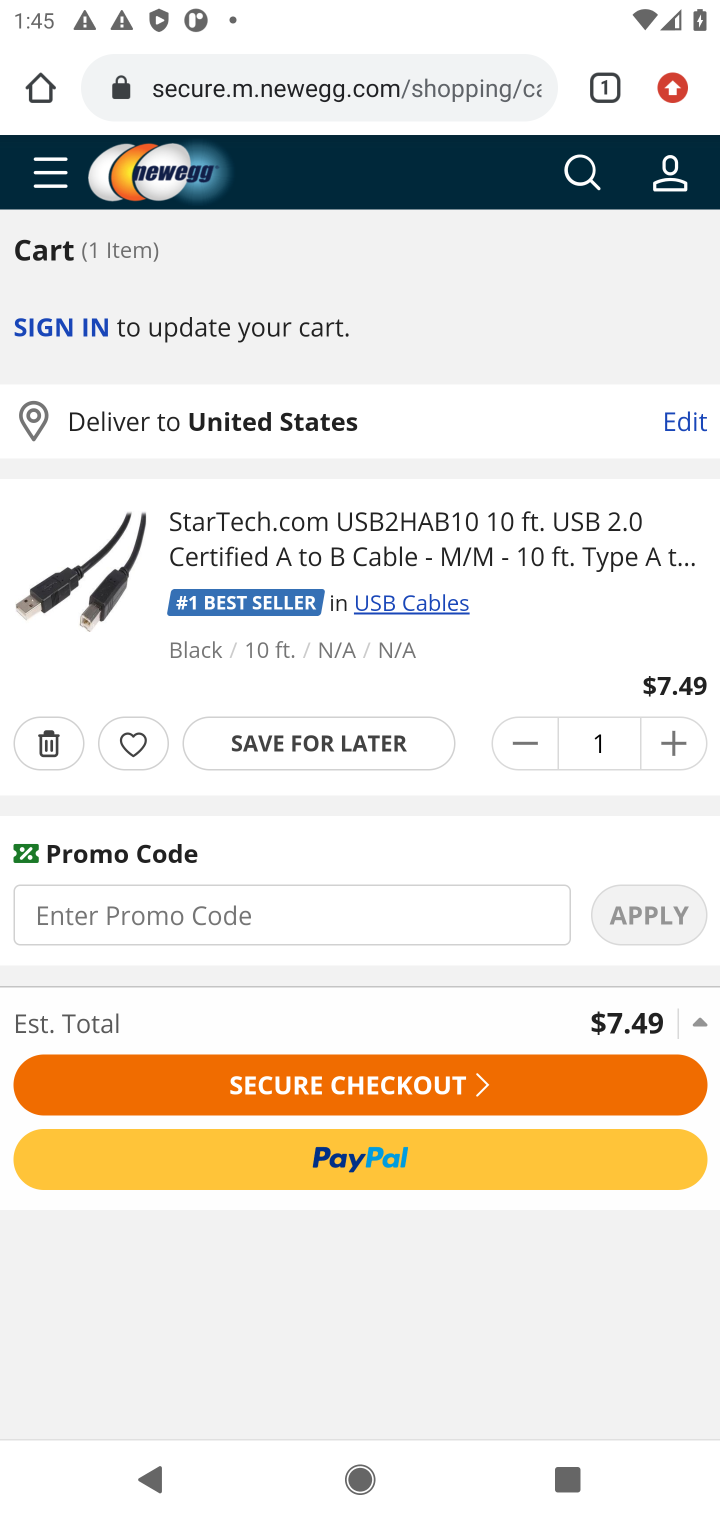
Step 30: click (410, 1080)
Your task to perform on an android device: Add usb-b to the cart on newegg, then select checkout. Image 31: 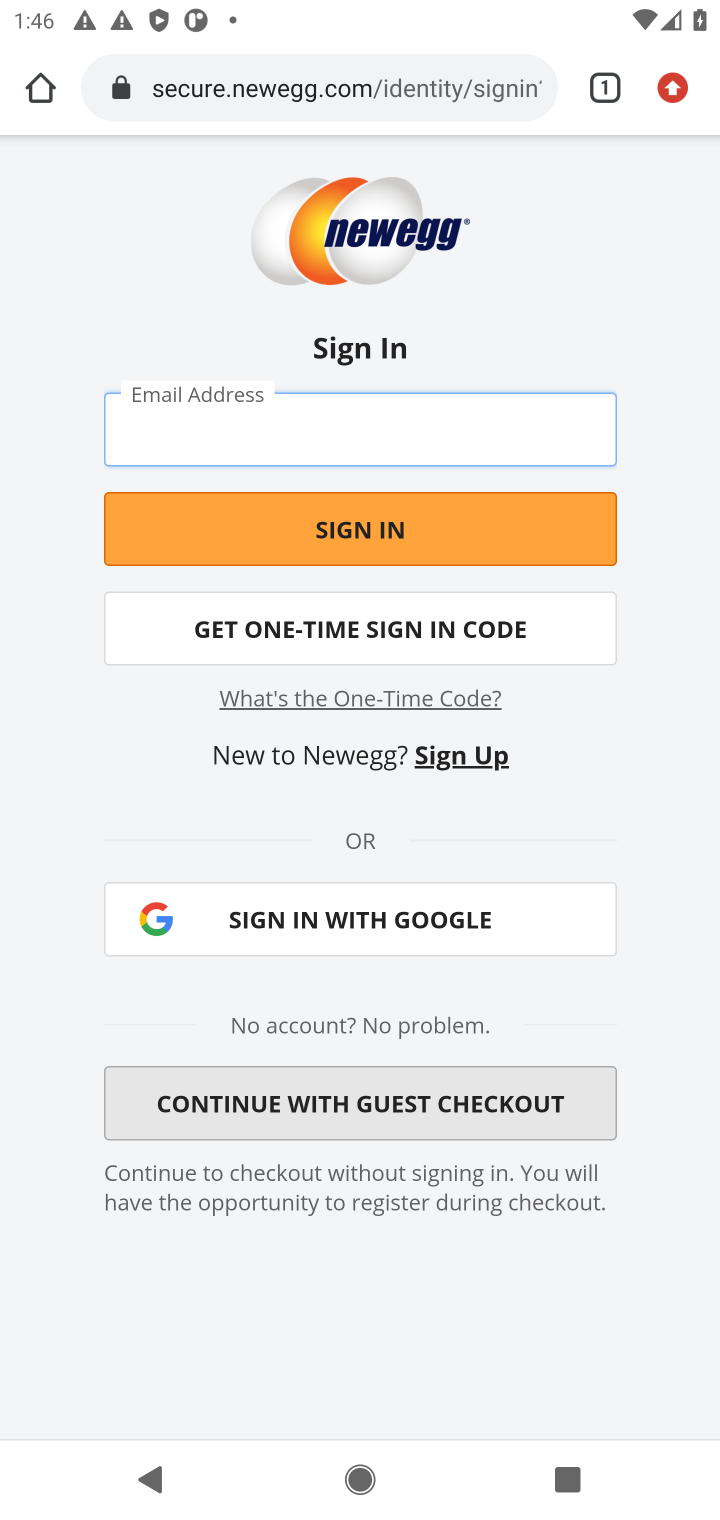
Step 31: task complete